Your task to perform on an android device: Show the shopping cart on walmart.com. Search for razer naga on walmart.com, select the first entry, add it to the cart, then select checkout. Image 0: 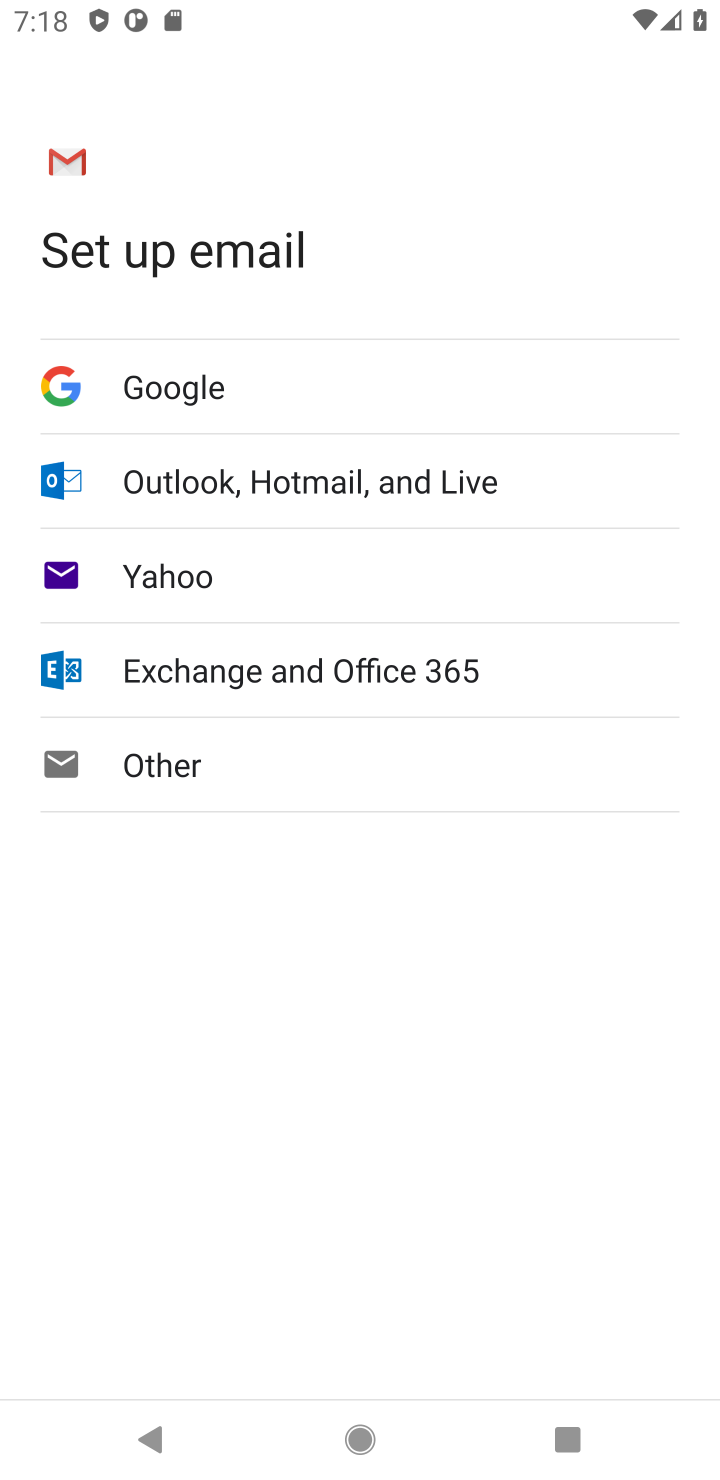
Step 0: press home button
Your task to perform on an android device: Show the shopping cart on walmart.com. Search for razer naga on walmart.com, select the first entry, add it to the cart, then select checkout. Image 1: 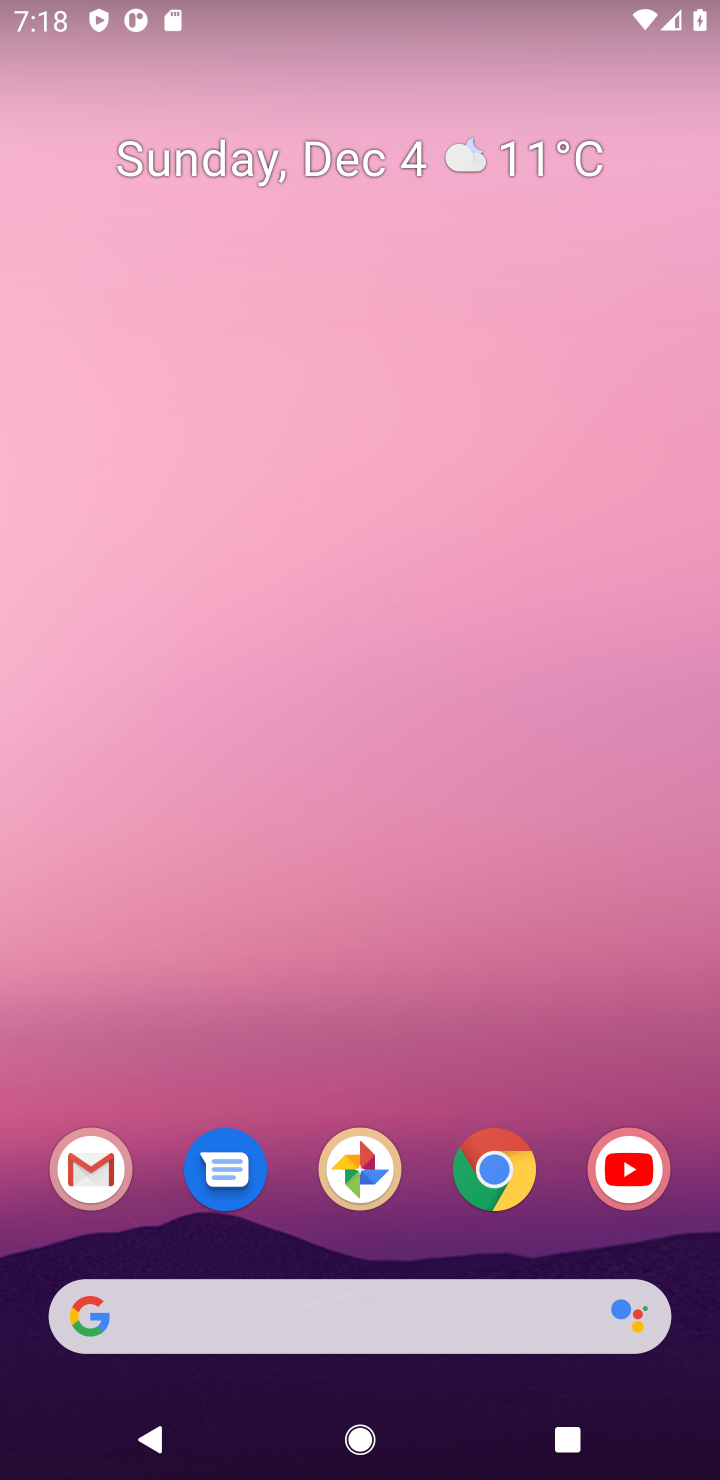
Step 1: drag from (489, 1391) to (562, 114)
Your task to perform on an android device: Show the shopping cart on walmart.com. Search for razer naga on walmart.com, select the first entry, add it to the cart, then select checkout. Image 2: 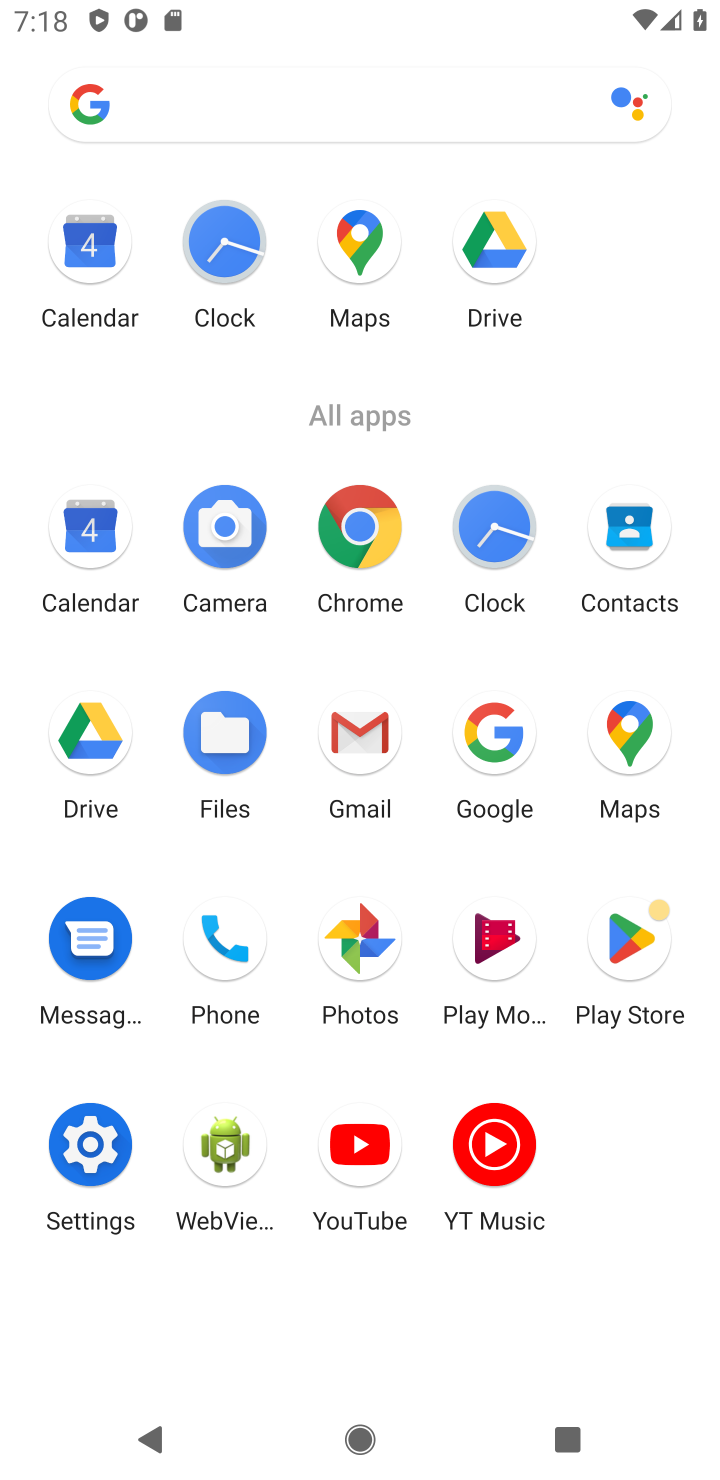
Step 2: click (355, 538)
Your task to perform on an android device: Show the shopping cart on walmart.com. Search for razer naga on walmart.com, select the first entry, add it to the cart, then select checkout. Image 3: 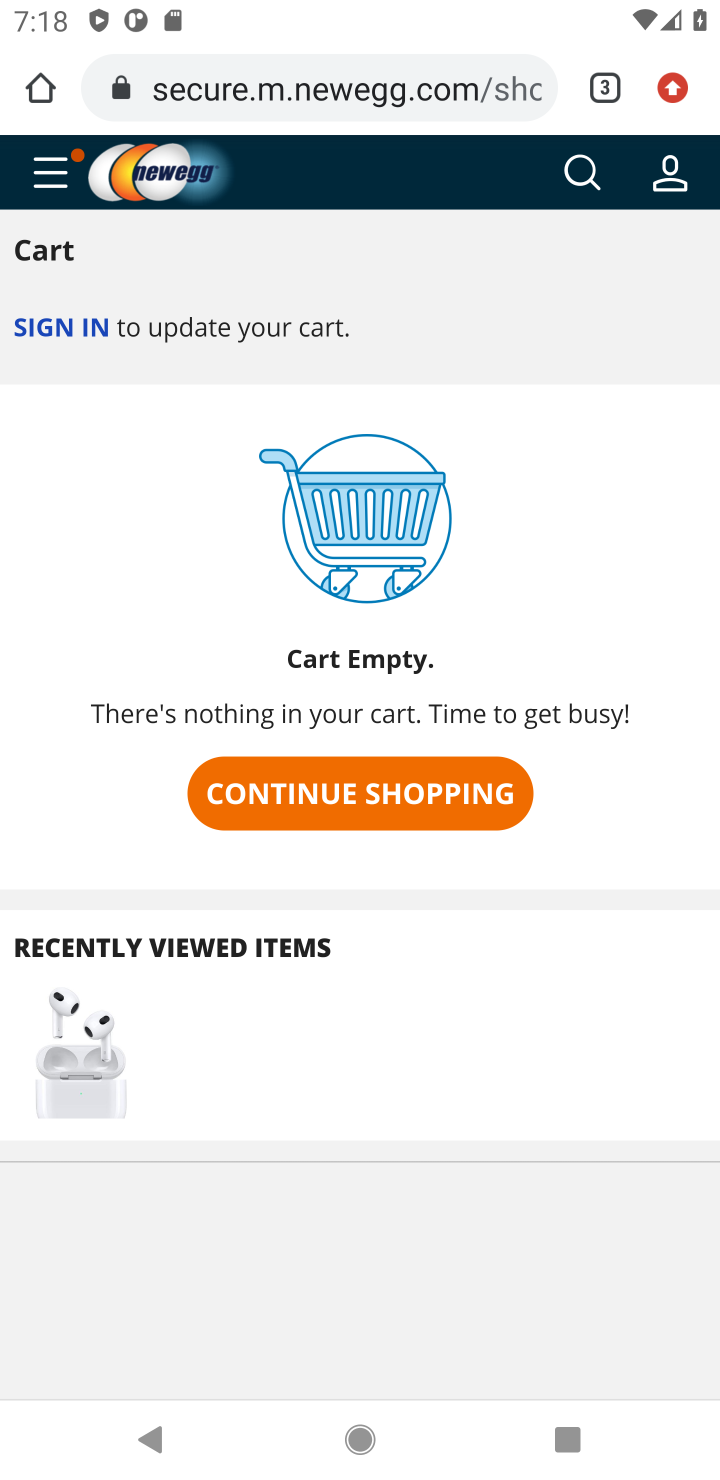
Step 3: click (265, 97)
Your task to perform on an android device: Show the shopping cart on walmart.com. Search for razer naga on walmart.com, select the first entry, add it to the cart, then select checkout. Image 4: 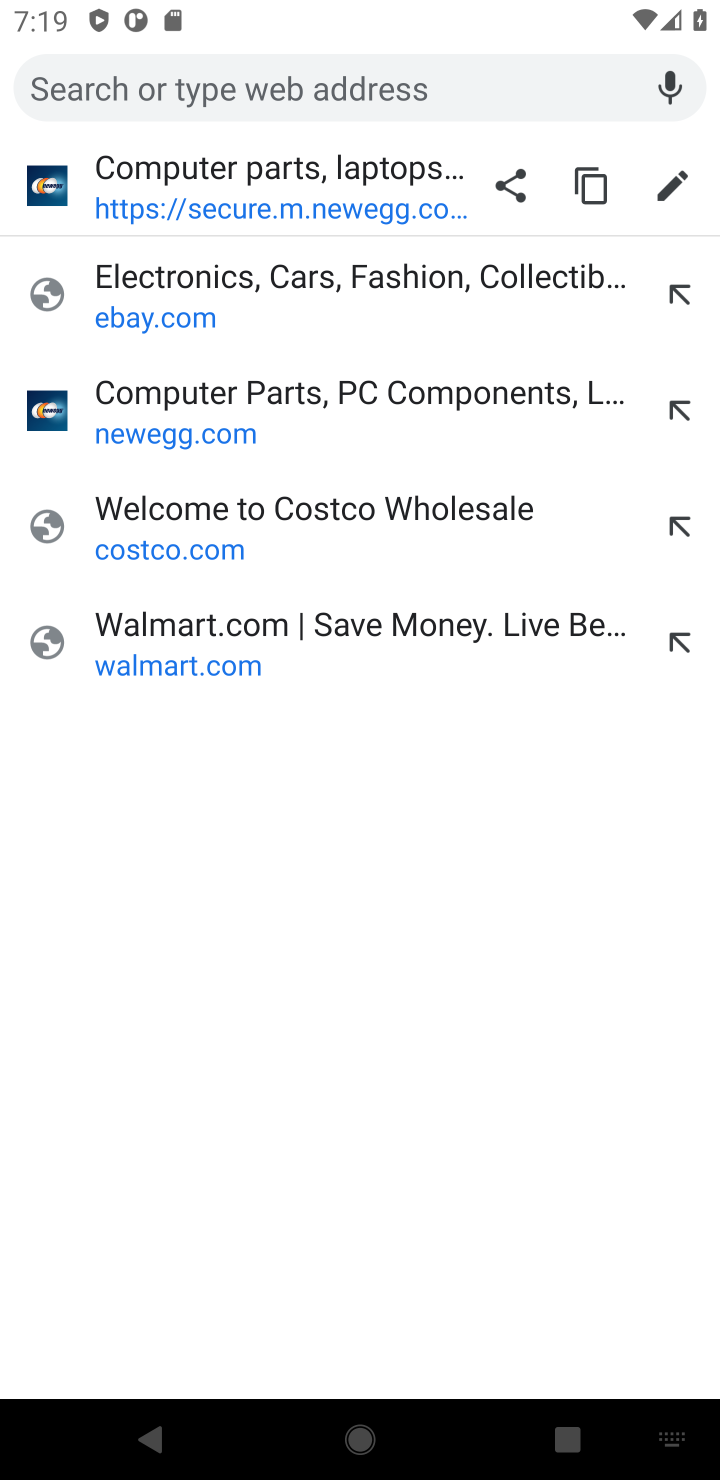
Step 4: type "walmart.com"
Your task to perform on an android device: Show the shopping cart on walmart.com. Search for razer naga on walmart.com, select the first entry, add it to the cart, then select checkout. Image 5: 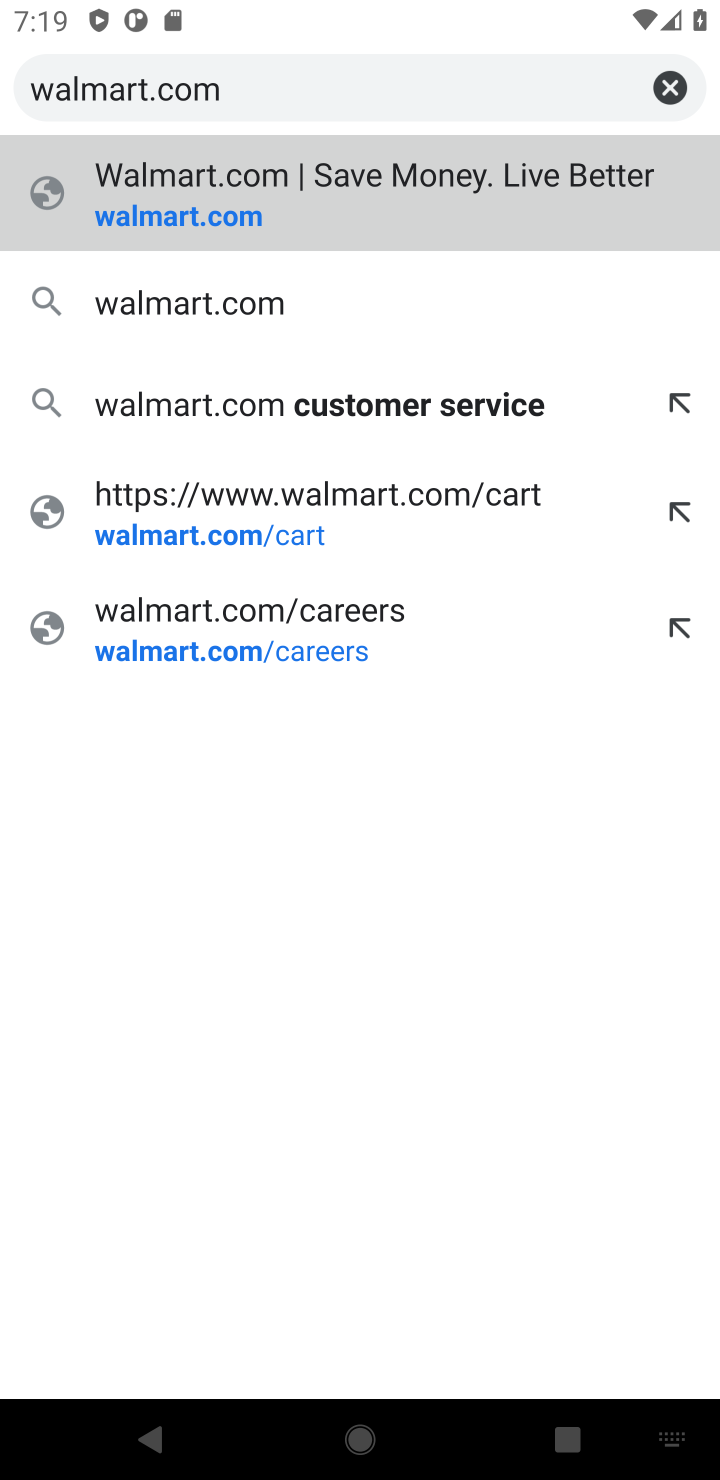
Step 5: type ""
Your task to perform on an android device: Show the shopping cart on walmart.com. Search for razer naga on walmart.com, select the first entry, add it to the cart, then select checkout. Image 6: 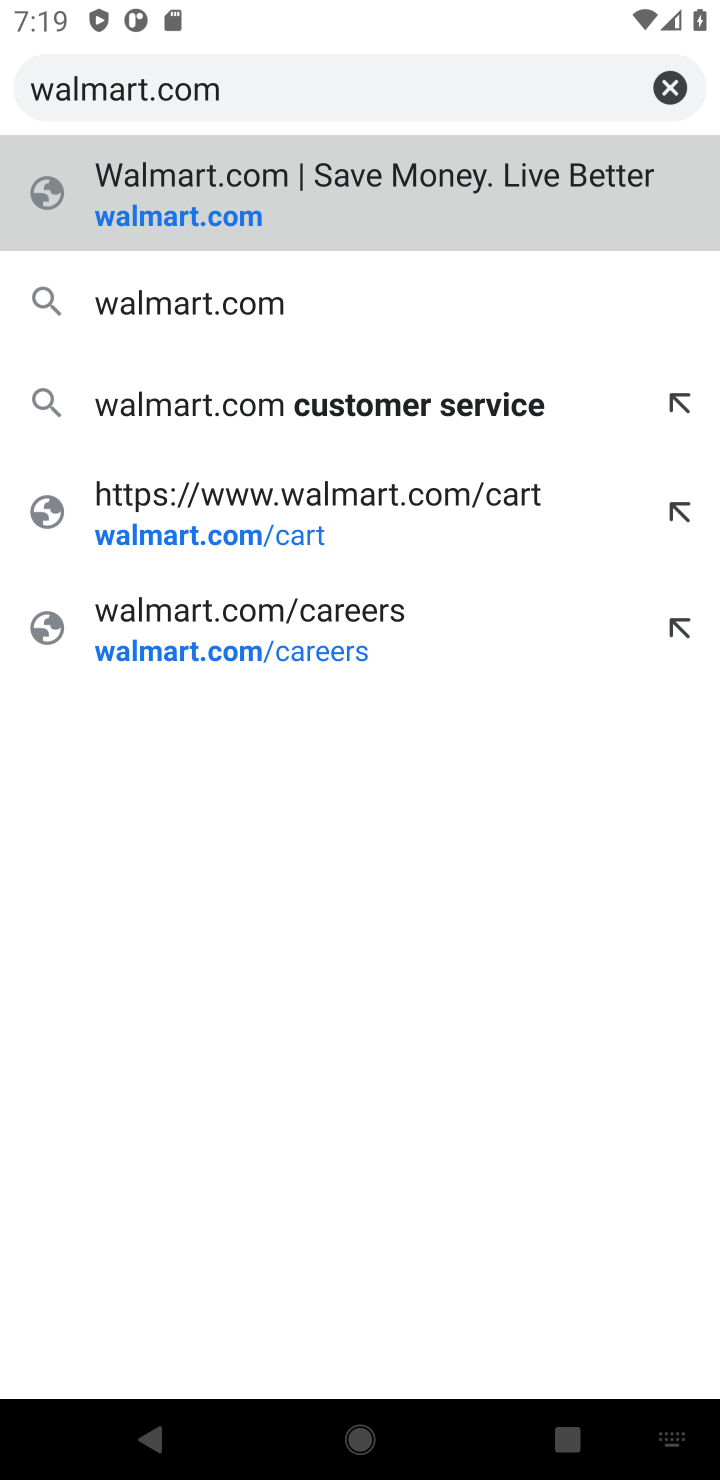
Step 6: click (167, 221)
Your task to perform on an android device: Show the shopping cart on walmart.com. Search for razer naga on walmart.com, select the first entry, add it to the cart, then select checkout. Image 7: 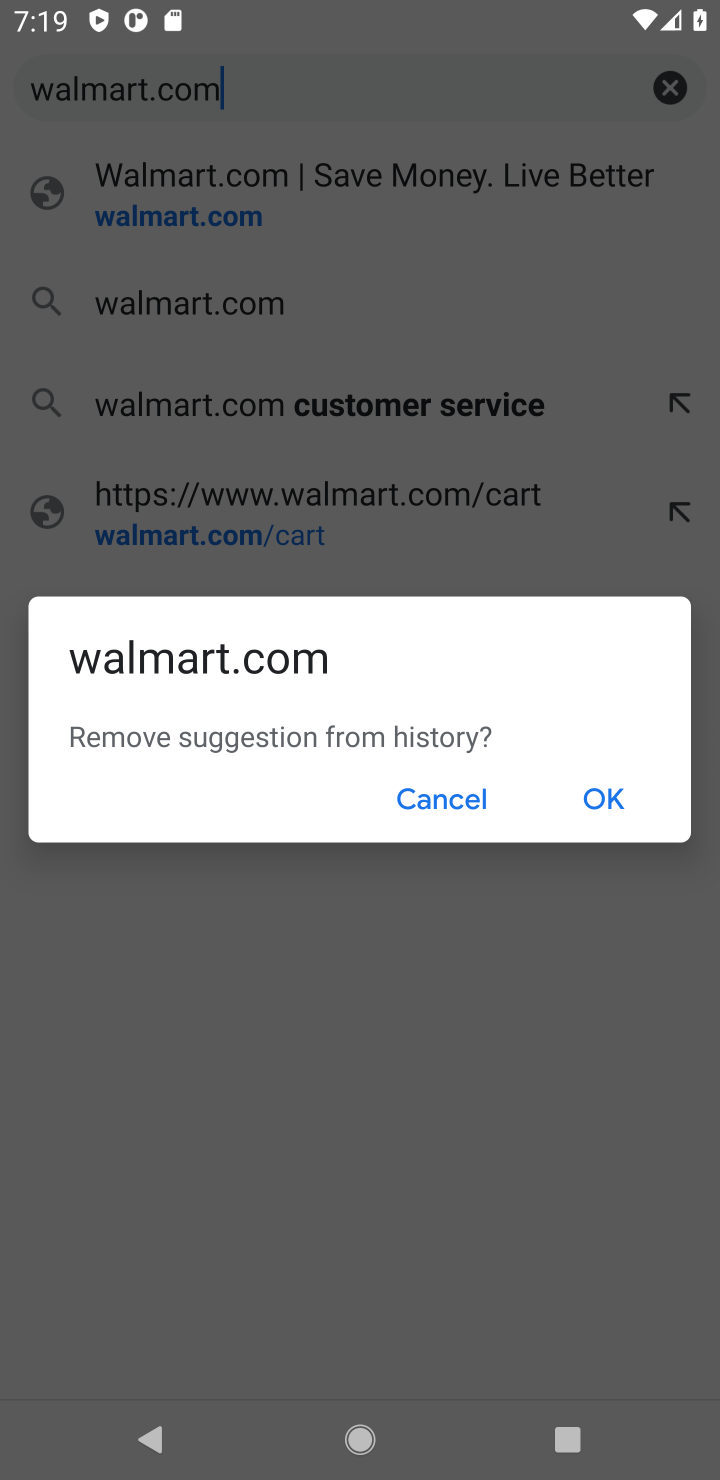
Step 7: click (603, 793)
Your task to perform on an android device: Show the shopping cart on walmart.com. Search for razer naga on walmart.com, select the first entry, add it to the cart, then select checkout. Image 8: 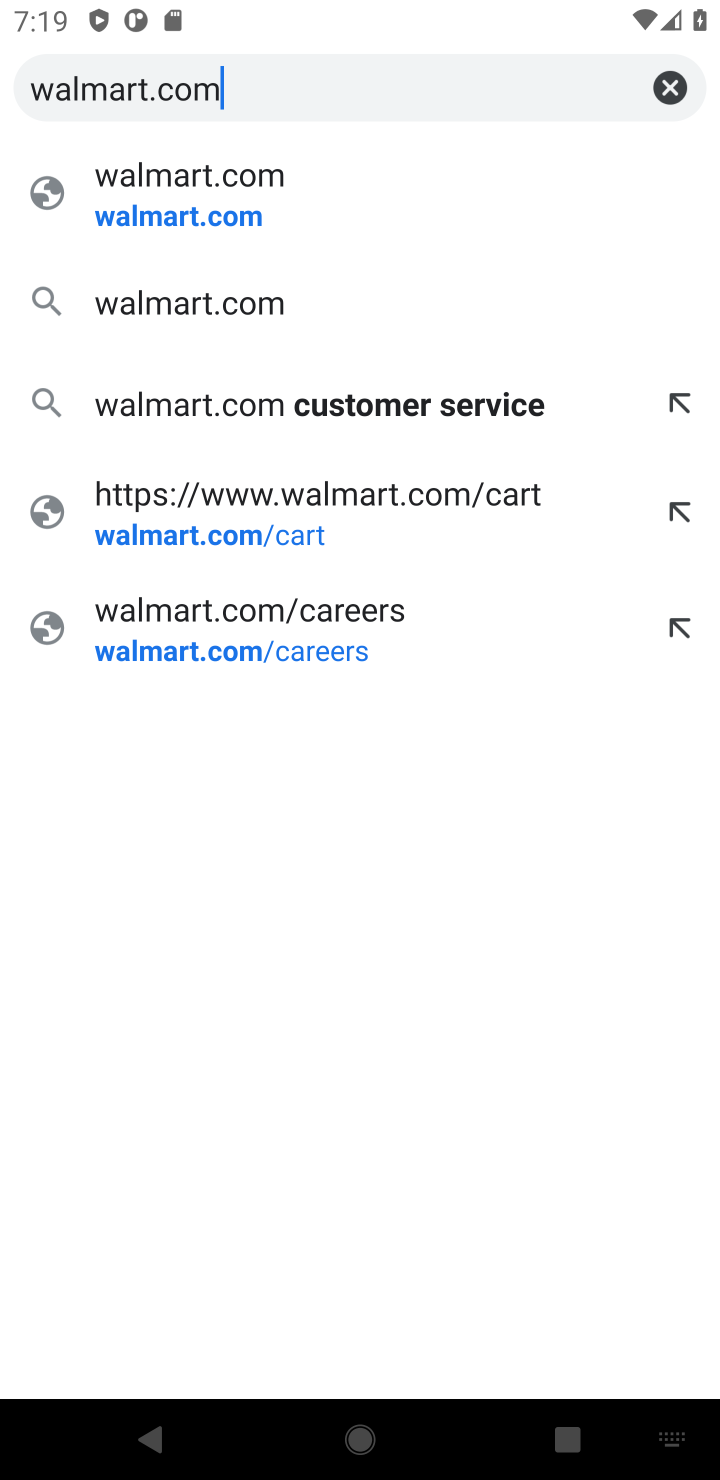
Step 8: click (193, 213)
Your task to perform on an android device: Show the shopping cart on walmart.com. Search for razer naga on walmart.com, select the first entry, add it to the cart, then select checkout. Image 9: 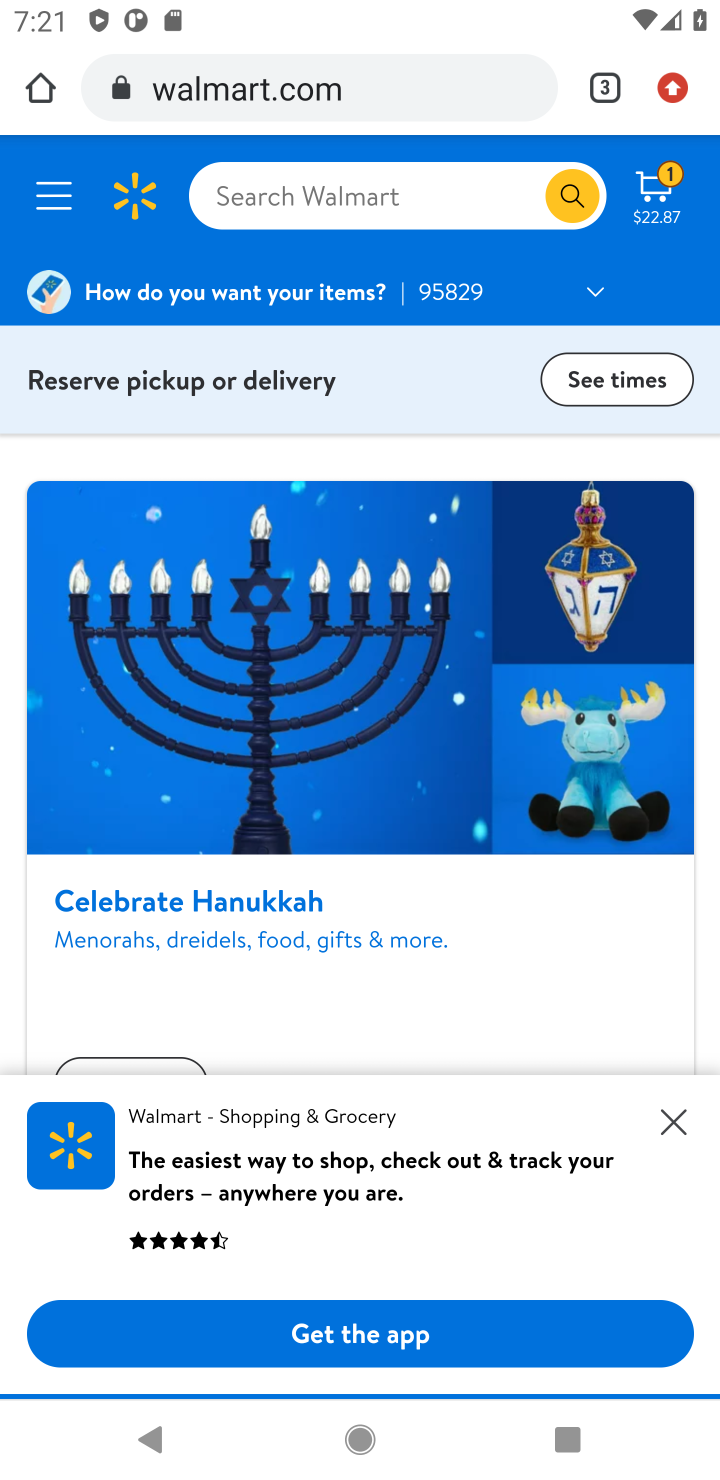
Step 9: click (652, 178)
Your task to perform on an android device: Show the shopping cart on walmart.com. Search for razer naga on walmart.com, select the first entry, add it to the cart, then select checkout. Image 10: 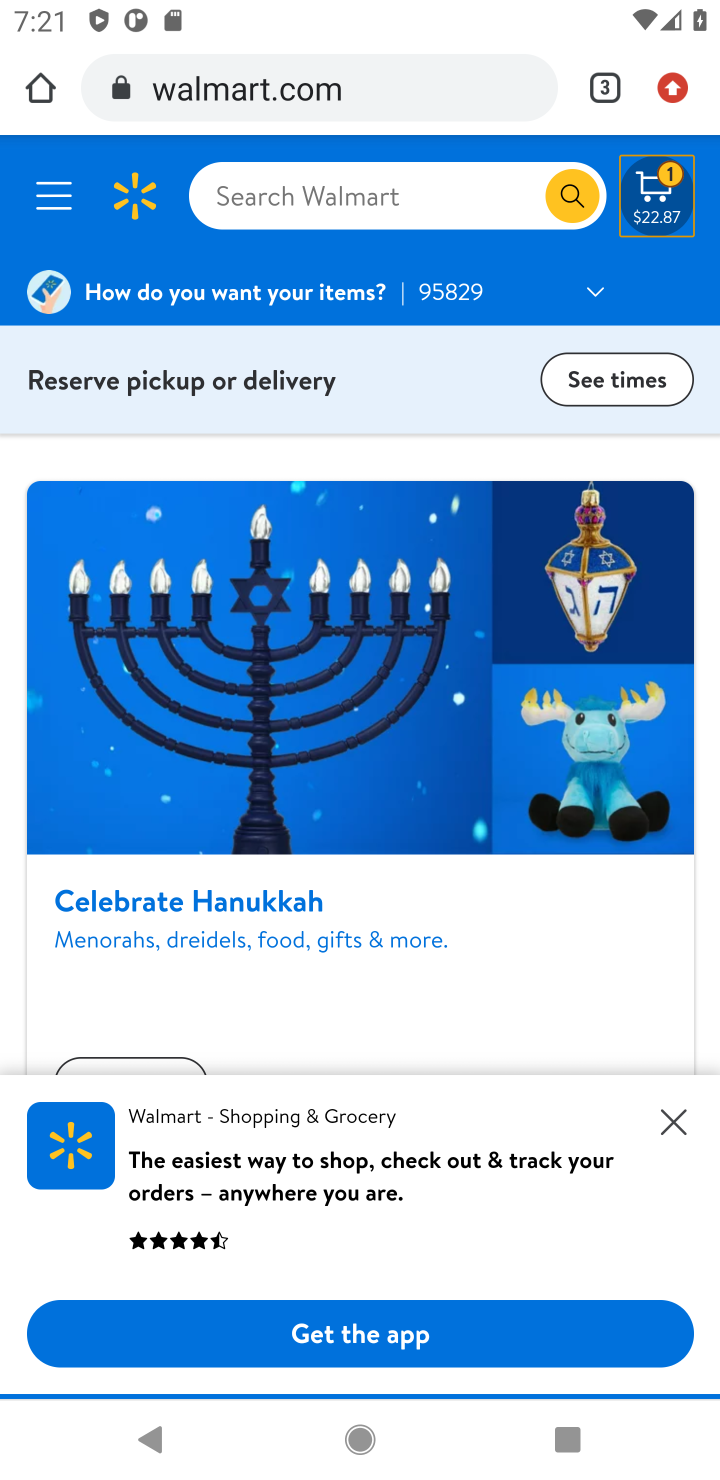
Step 10: click (655, 192)
Your task to perform on an android device: Show the shopping cart on walmart.com. Search for razer naga on walmart.com, select the first entry, add it to the cart, then select checkout. Image 11: 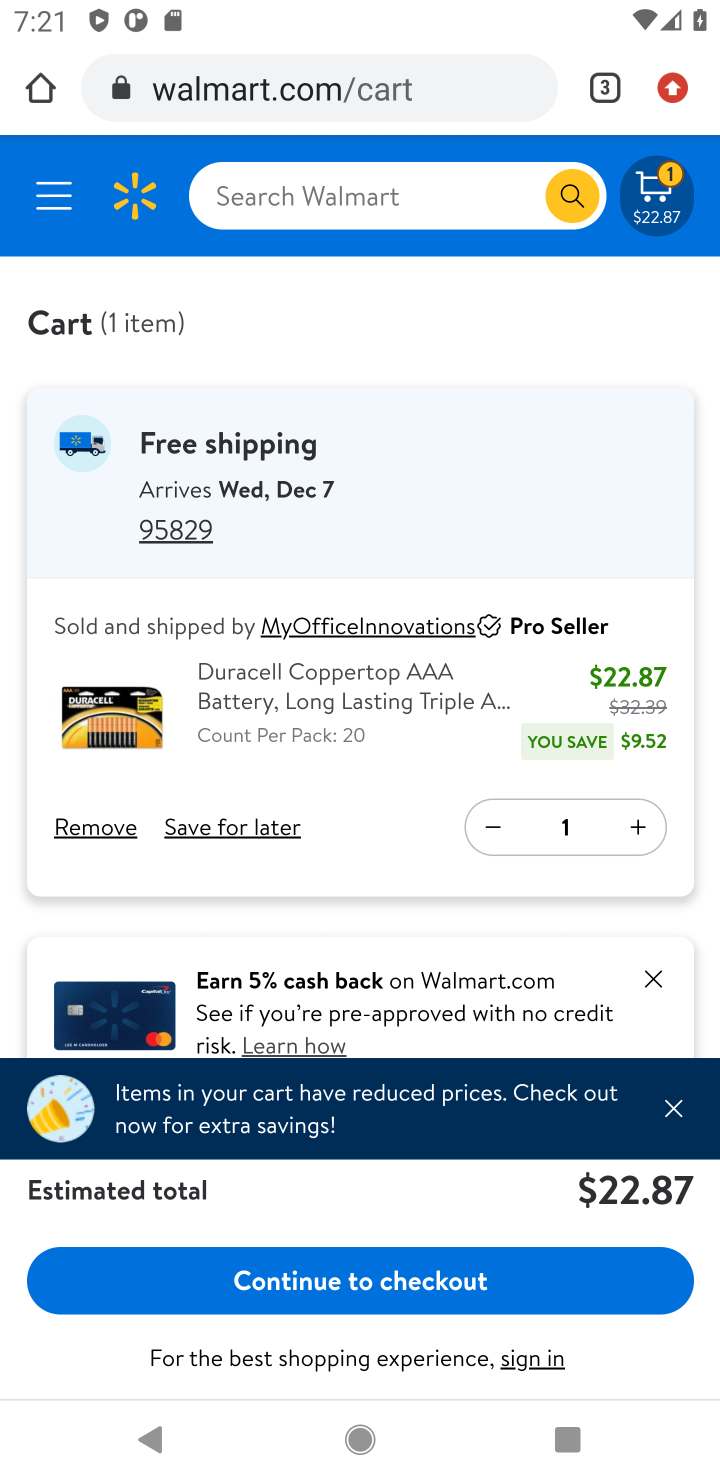
Step 11: click (286, 184)
Your task to perform on an android device: Show the shopping cart on walmart.com. Search for razer naga on walmart.com, select the first entry, add it to the cart, then select checkout. Image 12: 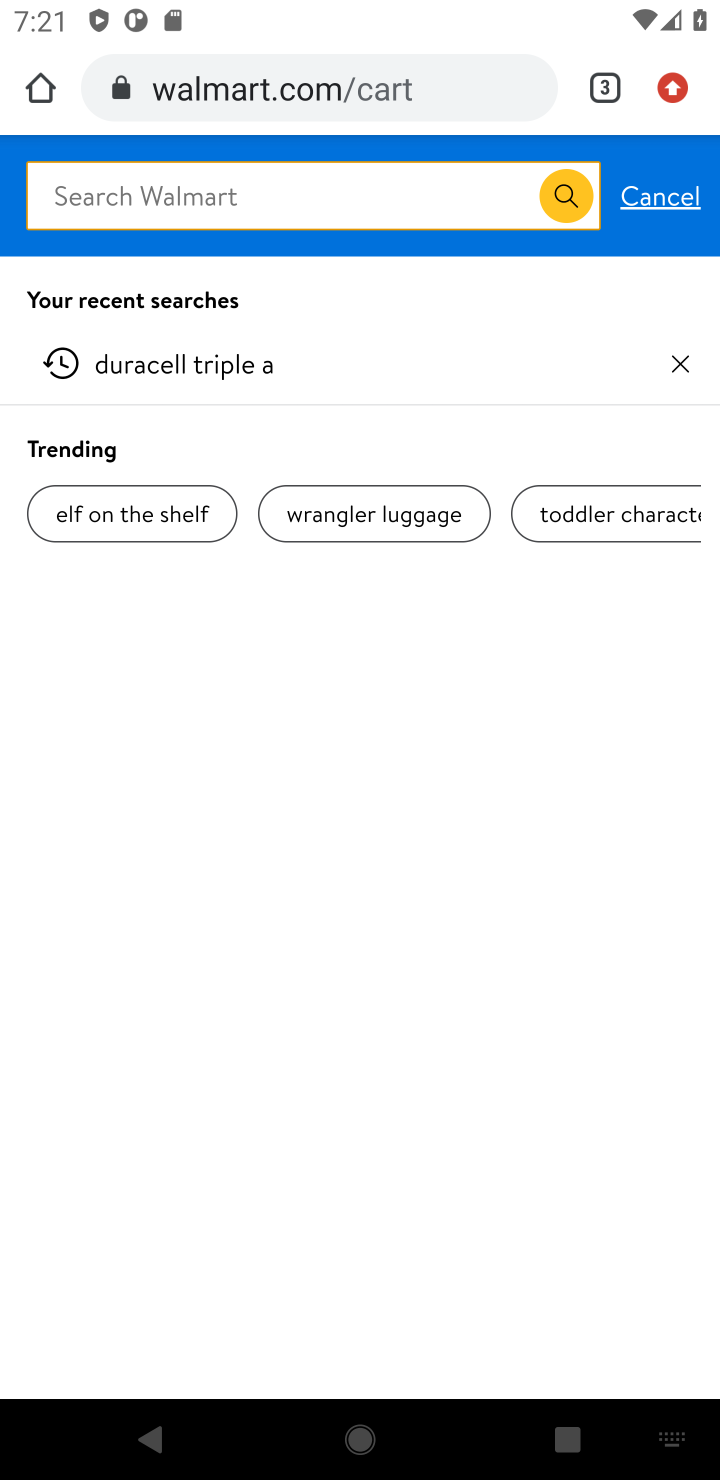
Step 12: type "razer naga"
Your task to perform on an android device: Show the shopping cart on walmart.com. Search for razer naga on walmart.com, select the first entry, add it to the cart, then select checkout. Image 13: 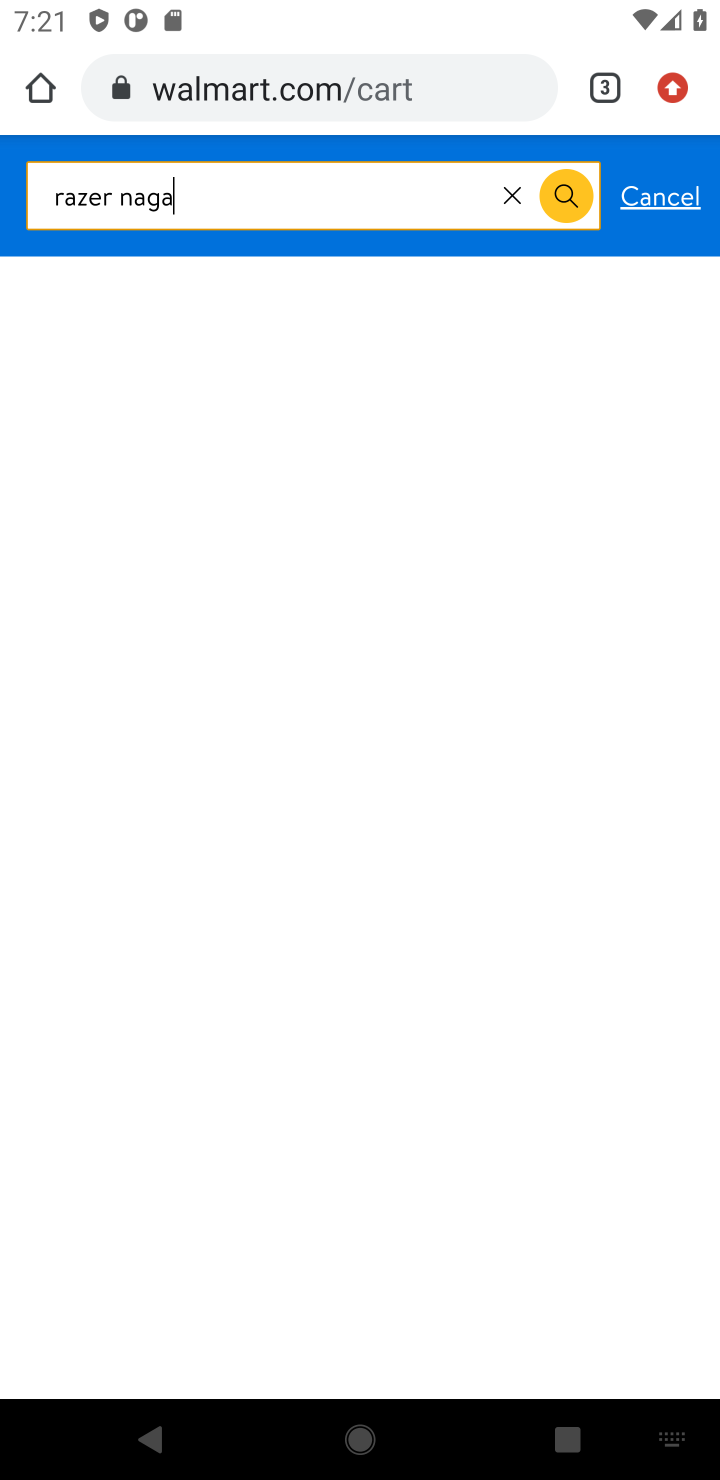
Step 13: type ""
Your task to perform on an android device: Show the shopping cart on walmart.com. Search for razer naga on walmart.com, select the first entry, add it to the cart, then select checkout. Image 14: 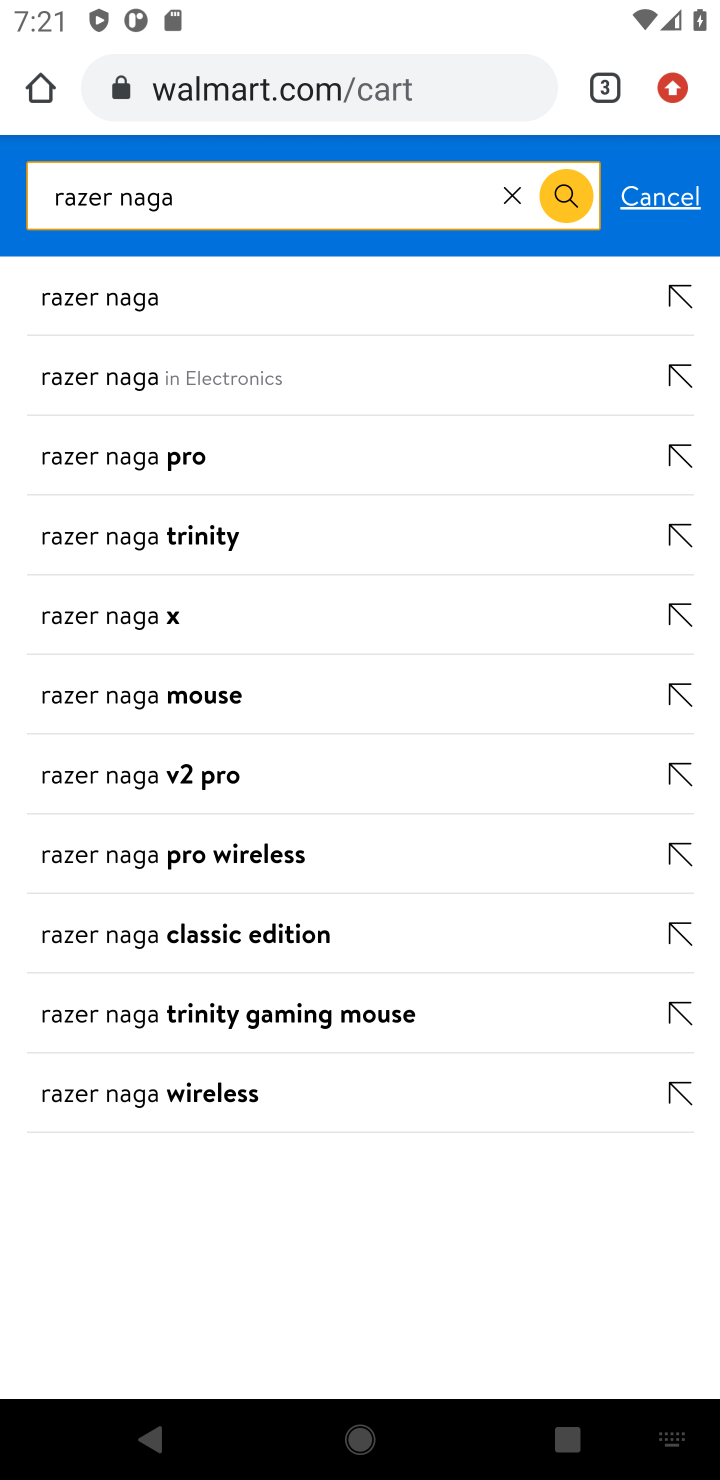
Step 14: click (127, 296)
Your task to perform on an android device: Show the shopping cart on walmart.com. Search for razer naga on walmart.com, select the first entry, add it to the cart, then select checkout. Image 15: 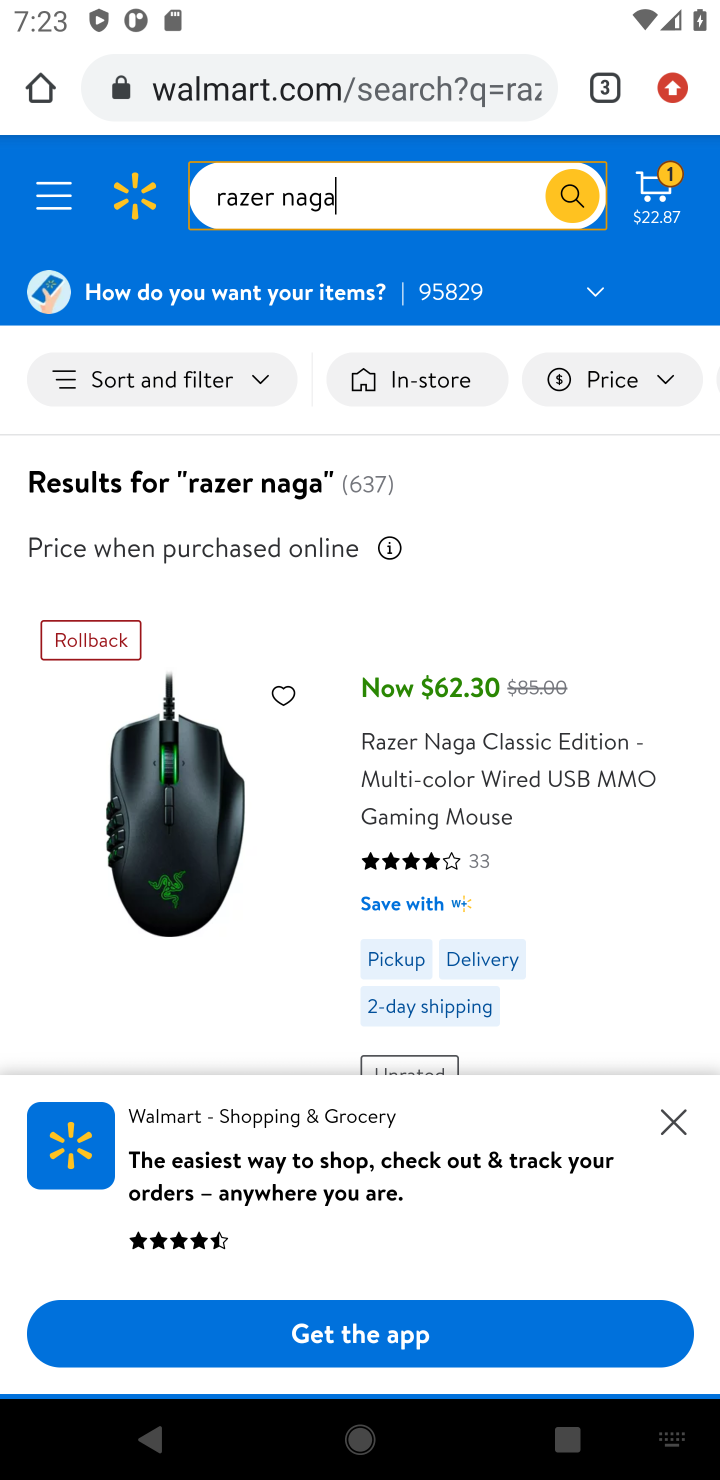
Step 15: click (579, 192)
Your task to perform on an android device: Show the shopping cart on walmart.com. Search for razer naga on walmart.com, select the first entry, add it to the cart, then select checkout. Image 16: 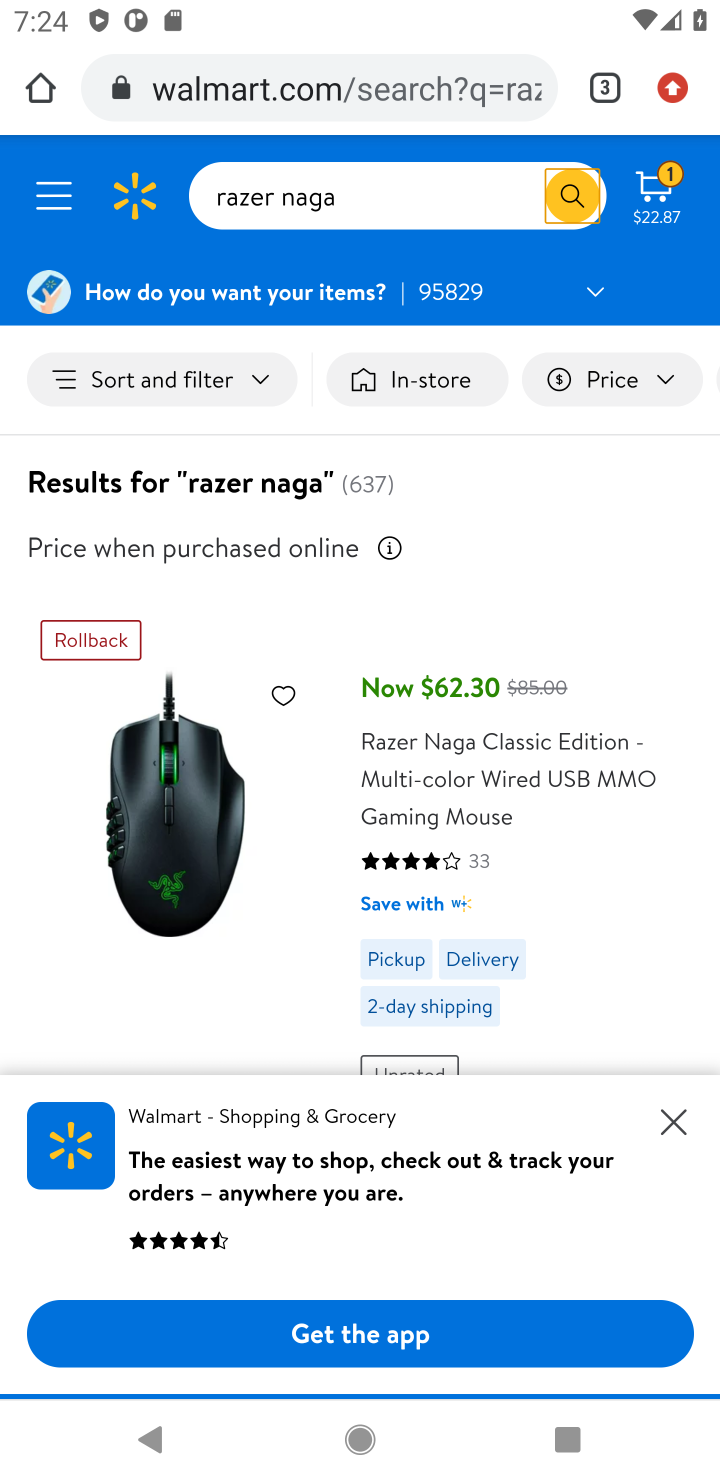
Step 16: drag from (502, 858) to (550, 382)
Your task to perform on an android device: Show the shopping cart on walmart.com. Search for razer naga on walmart.com, select the first entry, add it to the cart, then select checkout. Image 17: 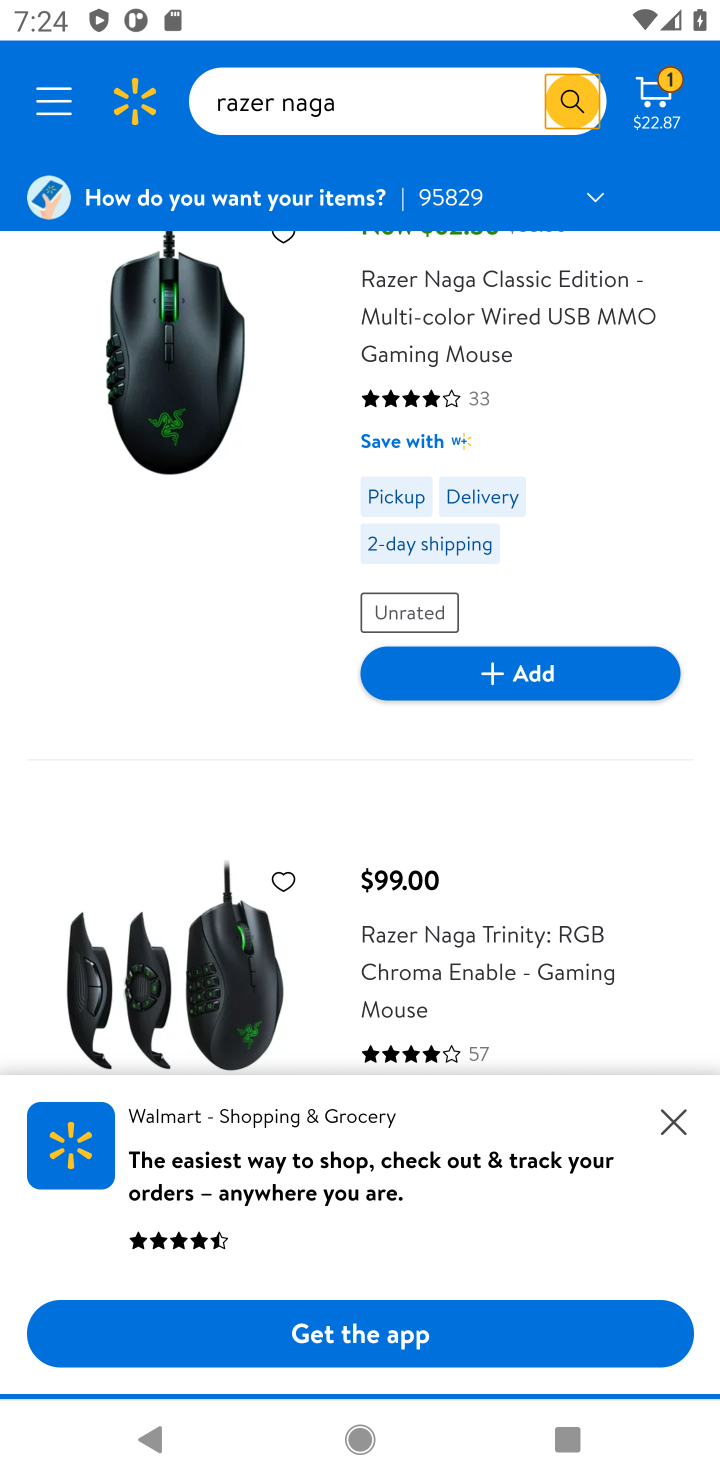
Step 17: click (545, 669)
Your task to perform on an android device: Show the shopping cart on walmart.com. Search for razer naga on walmart.com, select the first entry, add it to the cart, then select checkout. Image 18: 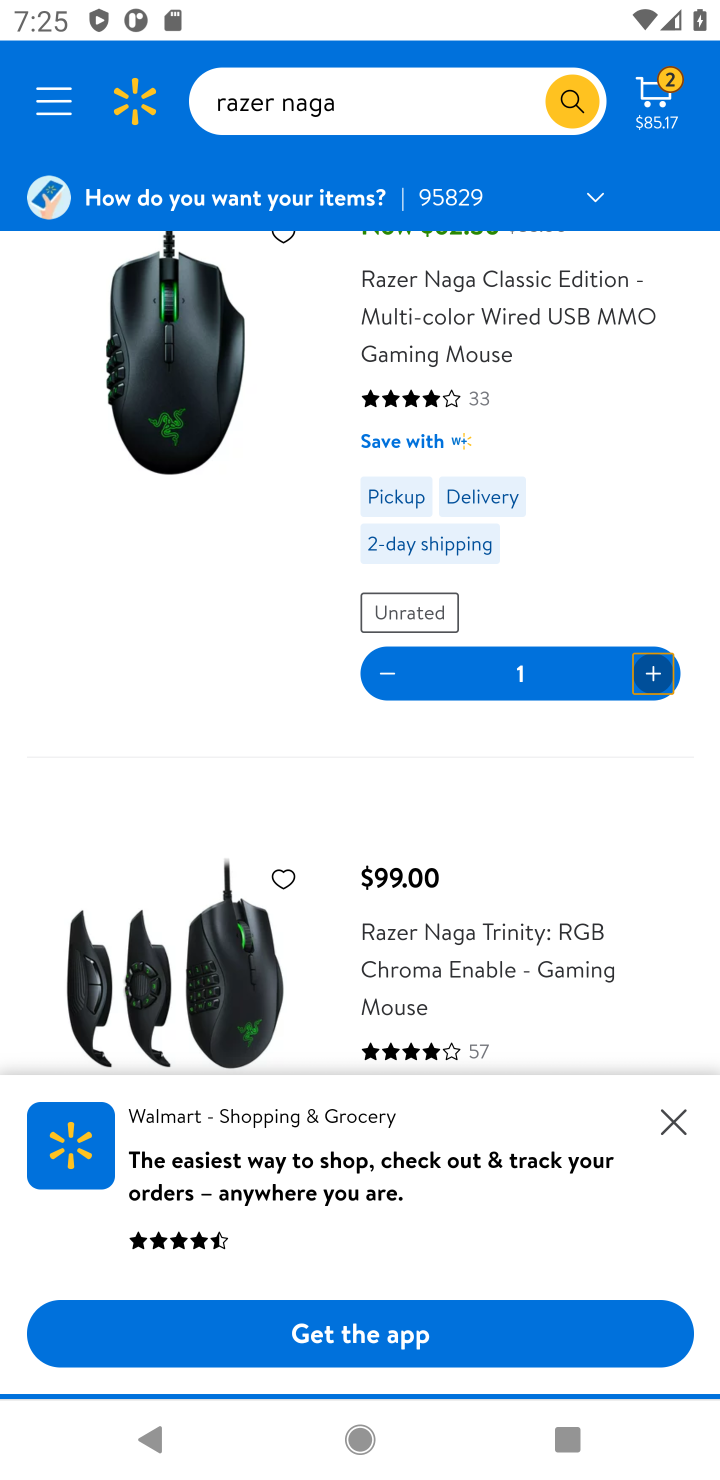
Step 18: click (248, 344)
Your task to perform on an android device: Show the shopping cart on walmart.com. Search for razer naga on walmart.com, select the first entry, add it to the cart, then select checkout. Image 19: 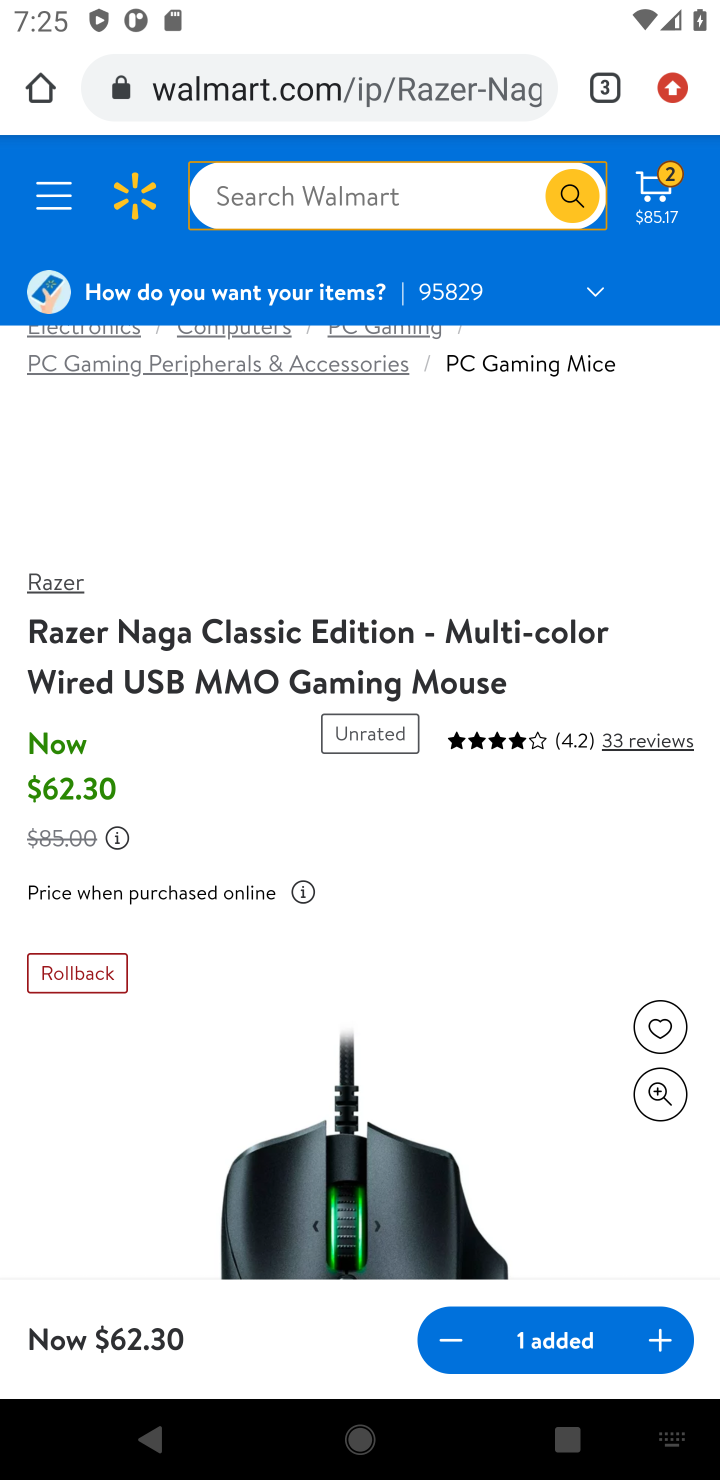
Step 19: drag from (428, 1126) to (446, 428)
Your task to perform on an android device: Show the shopping cart on walmart.com. Search for razer naga on walmart.com, select the first entry, add it to the cart, then select checkout. Image 20: 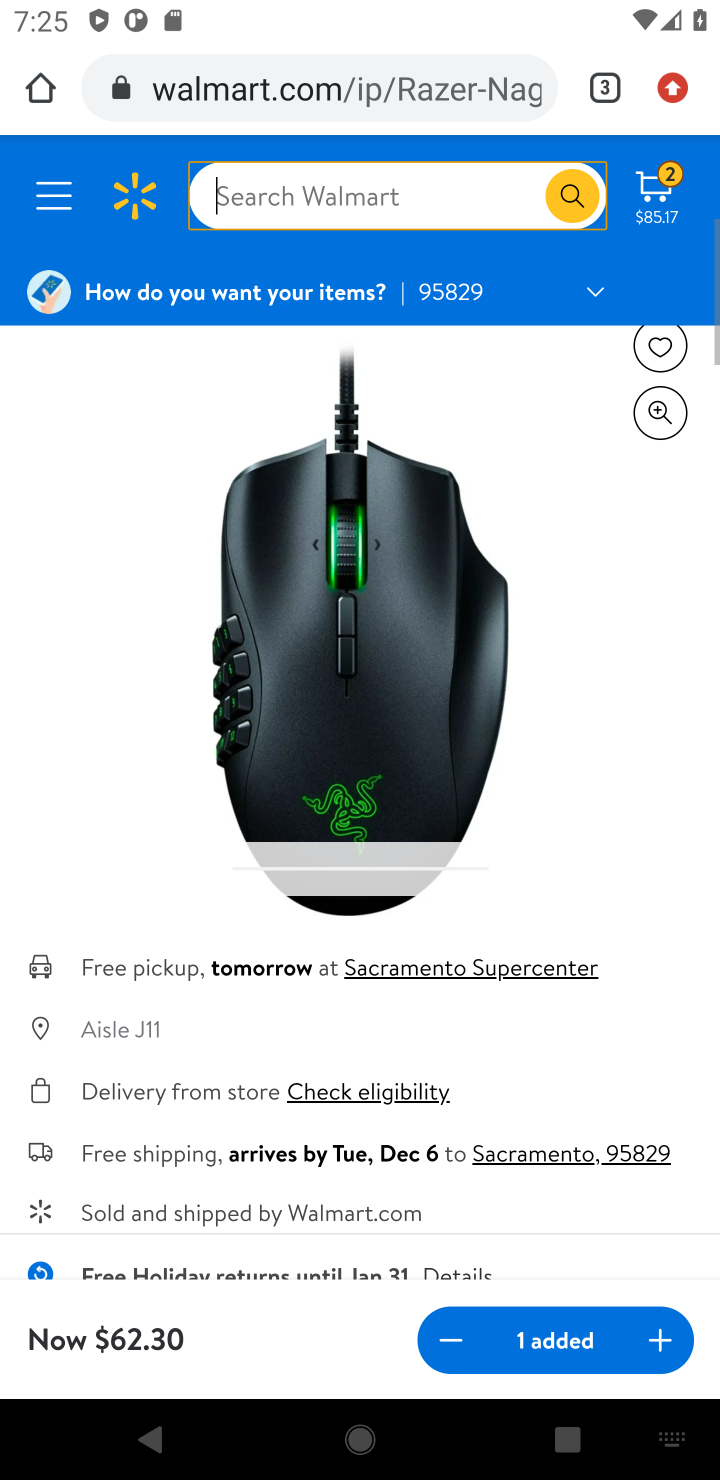
Step 20: drag from (481, 1101) to (525, 359)
Your task to perform on an android device: Show the shopping cart on walmart.com. Search for razer naga on walmart.com, select the first entry, add it to the cart, then select checkout. Image 21: 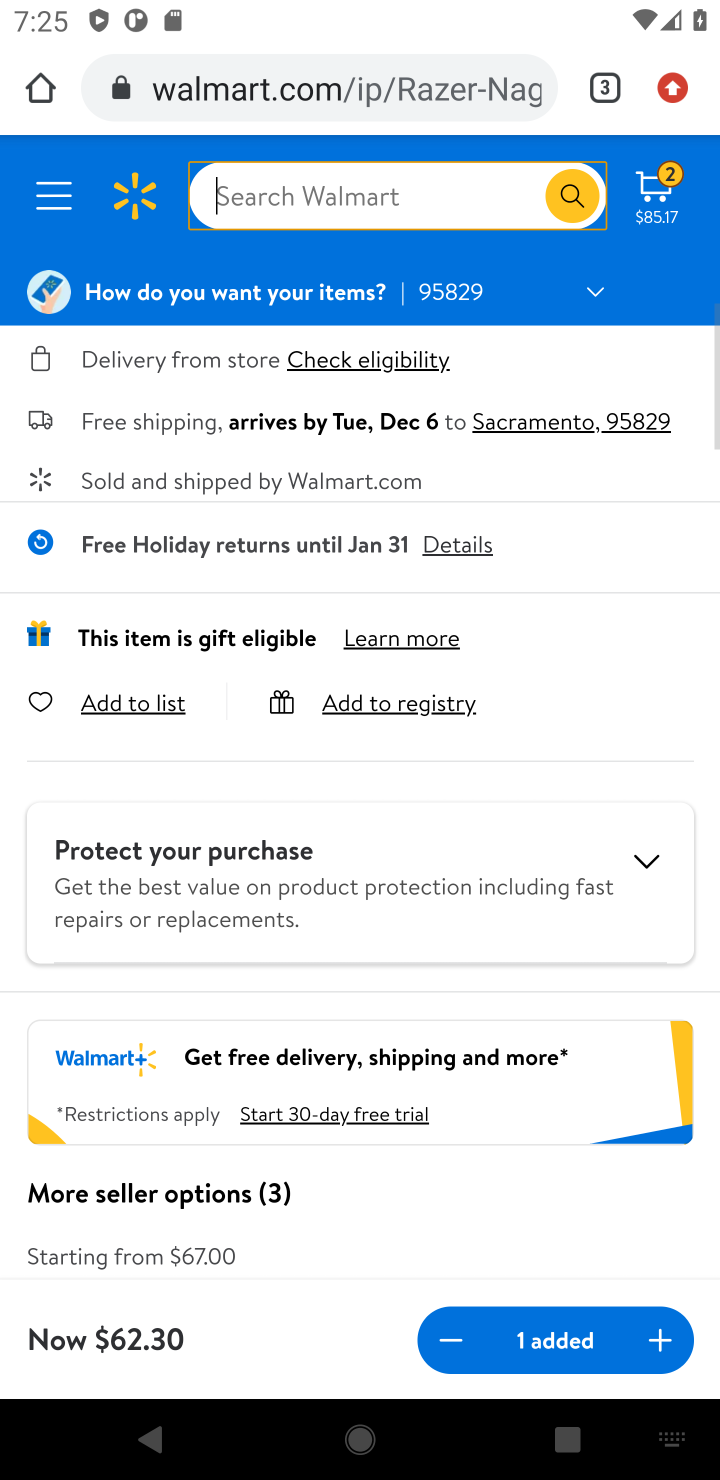
Step 21: drag from (526, 925) to (474, 392)
Your task to perform on an android device: Show the shopping cart on walmart.com. Search for razer naga on walmart.com, select the first entry, add it to the cart, then select checkout. Image 22: 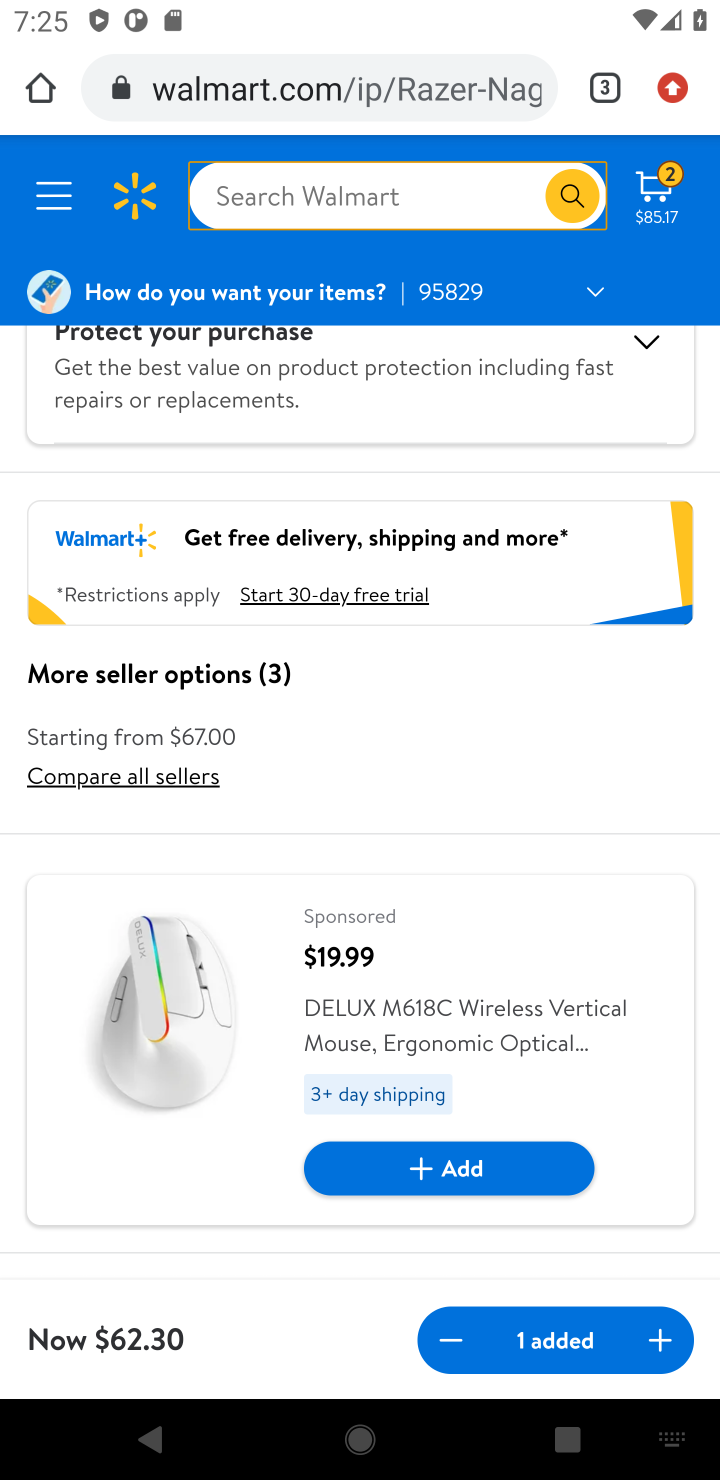
Step 22: drag from (419, 780) to (421, 398)
Your task to perform on an android device: Show the shopping cart on walmart.com. Search for razer naga on walmart.com, select the first entry, add it to the cart, then select checkout. Image 23: 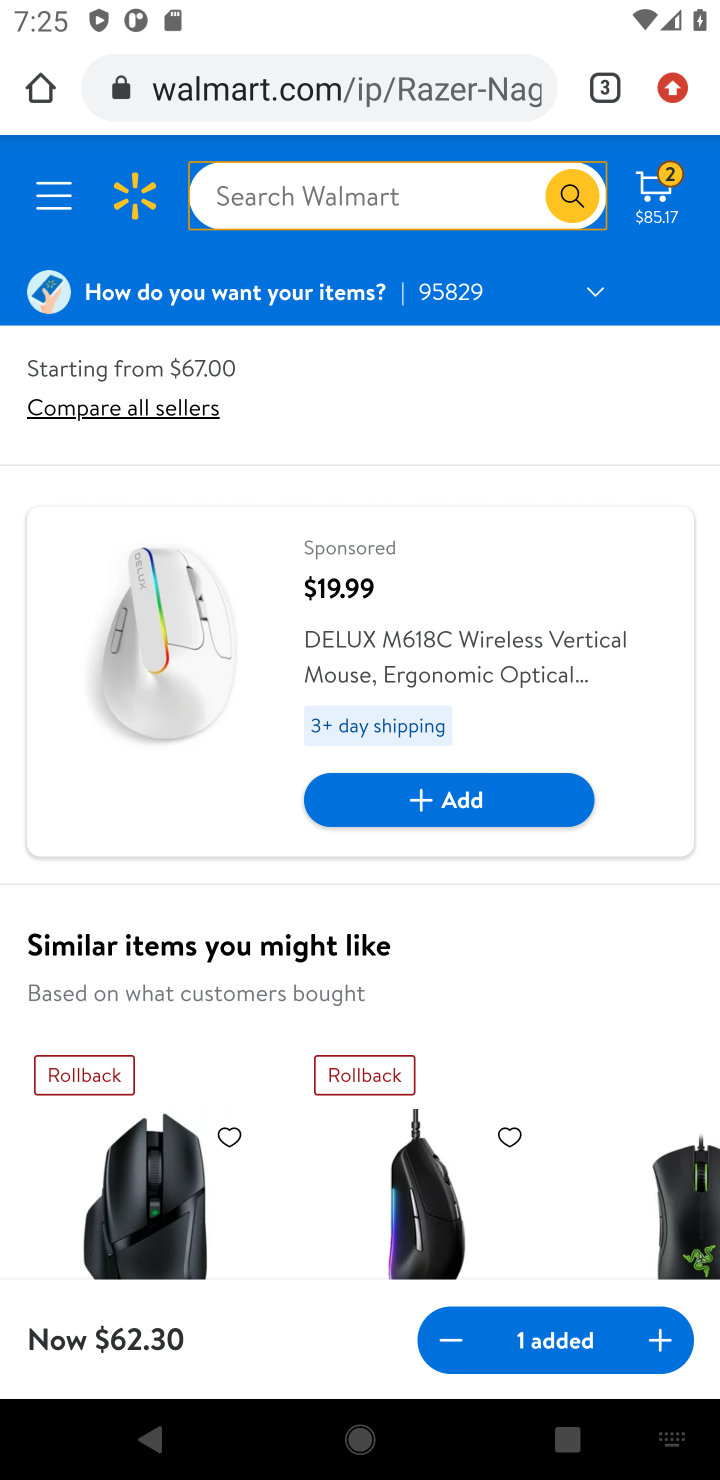
Step 23: drag from (536, 946) to (431, 365)
Your task to perform on an android device: Show the shopping cart on walmart.com. Search for razer naga on walmart.com, select the first entry, add it to the cart, then select checkout. Image 24: 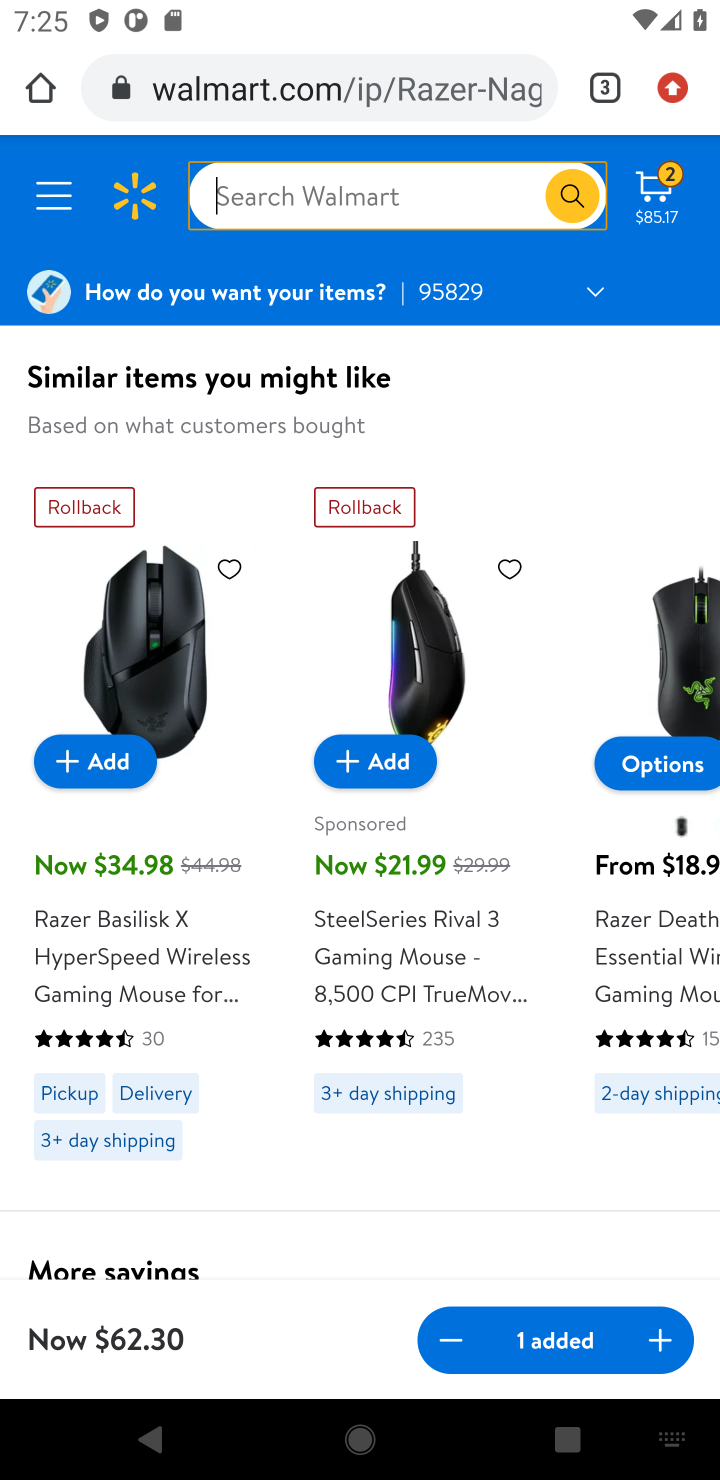
Step 24: drag from (433, 1195) to (435, 436)
Your task to perform on an android device: Show the shopping cart on walmart.com. Search for razer naga on walmart.com, select the first entry, add it to the cart, then select checkout. Image 25: 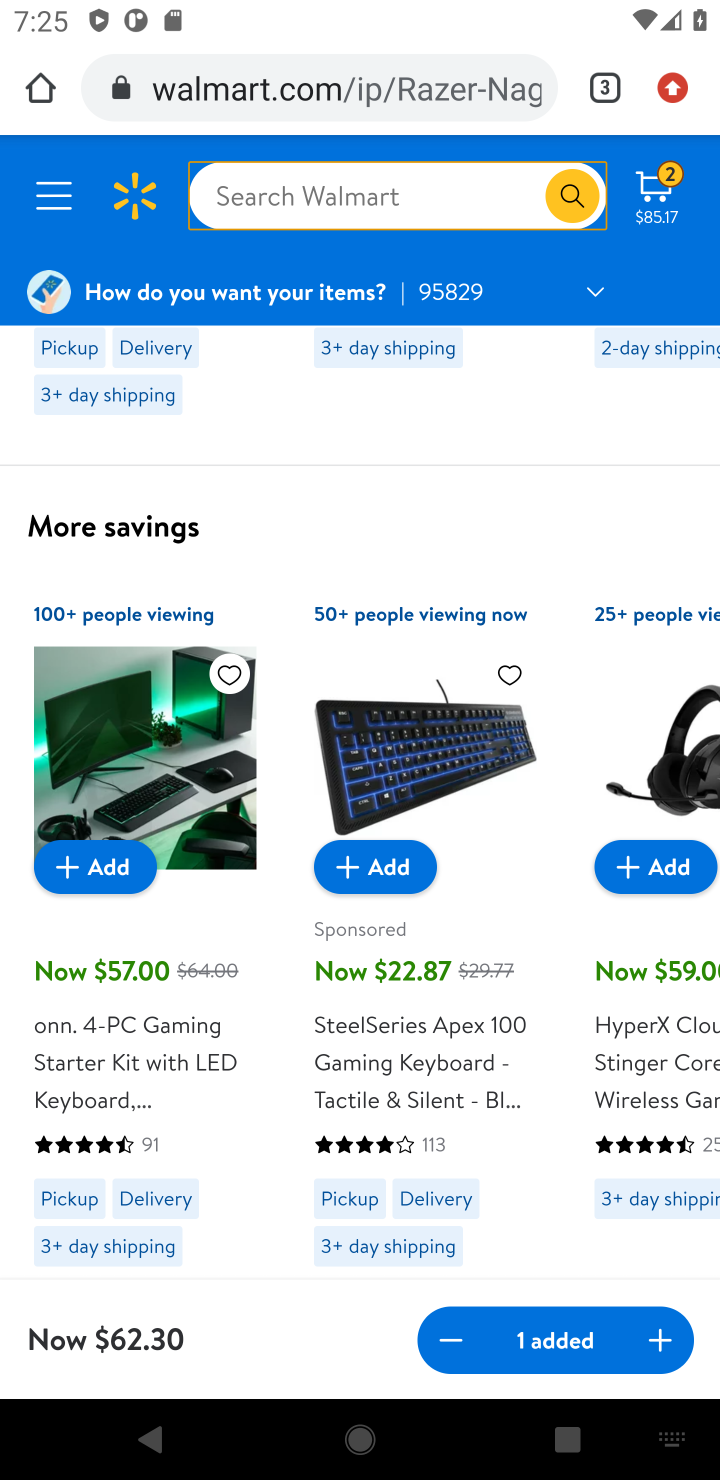
Step 25: drag from (416, 433) to (370, 1282)
Your task to perform on an android device: Show the shopping cart on walmart.com. Search for razer naga on walmart.com, select the first entry, add it to the cart, then select checkout. Image 26: 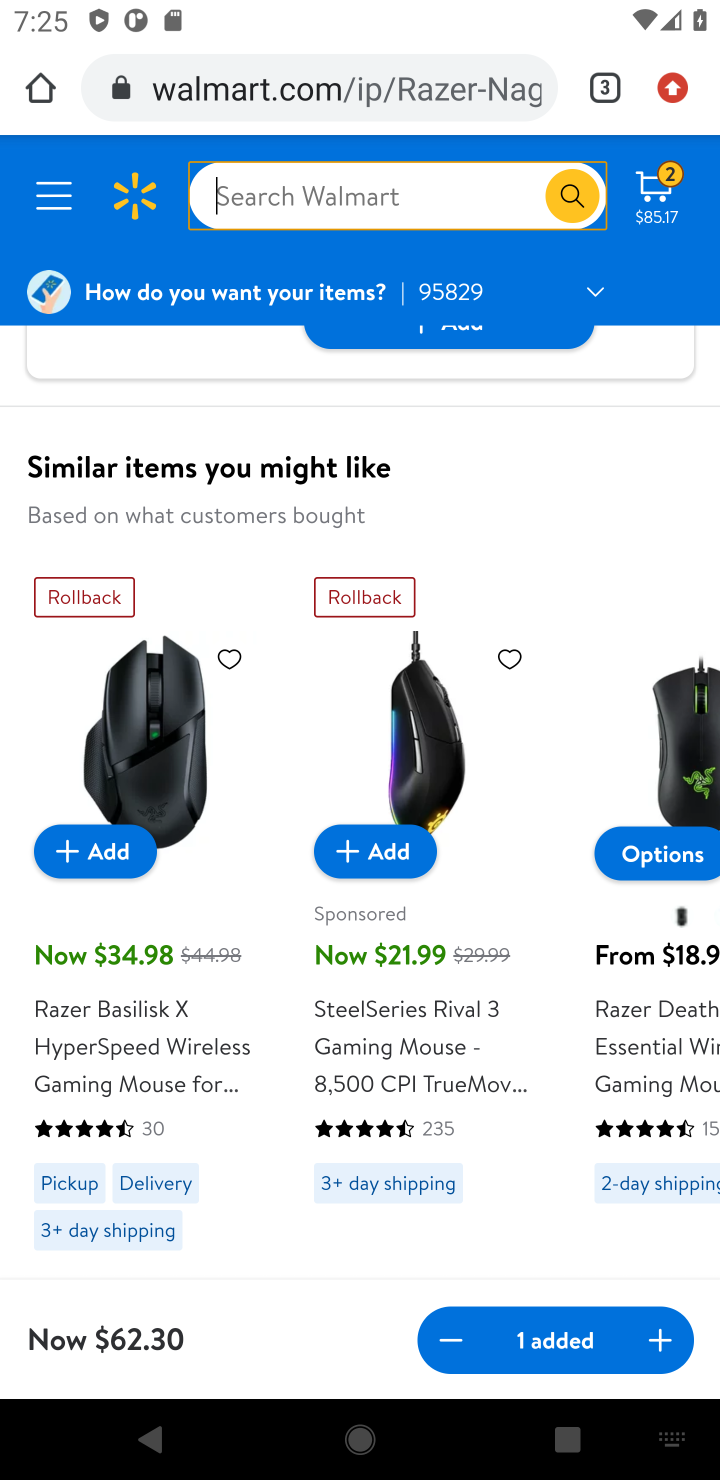
Step 26: drag from (154, 439) to (235, 1139)
Your task to perform on an android device: Show the shopping cart on walmart.com. Search for razer naga on walmart.com, select the first entry, add it to the cart, then select checkout. Image 27: 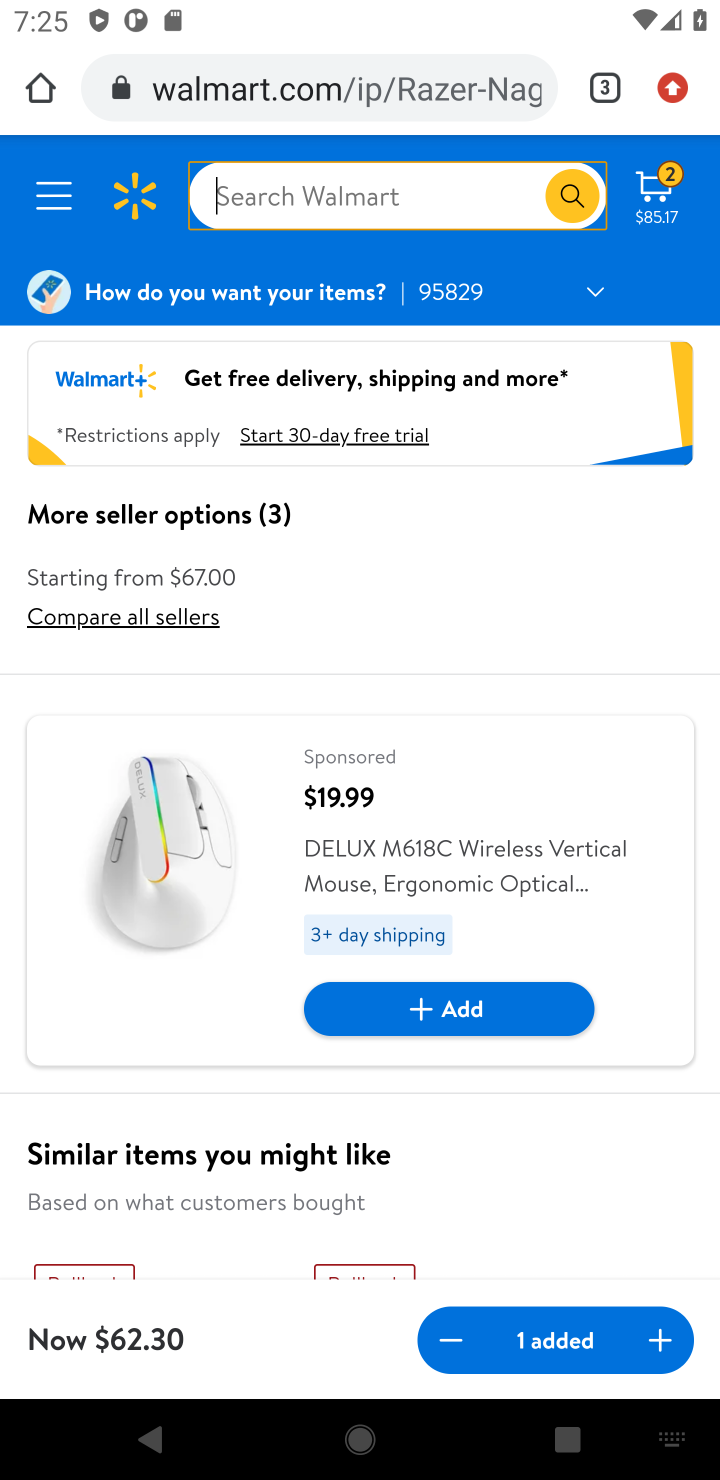
Step 27: drag from (260, 545) to (246, 1107)
Your task to perform on an android device: Show the shopping cart on walmart.com. Search for razer naga on walmart.com, select the first entry, add it to the cart, then select checkout. Image 28: 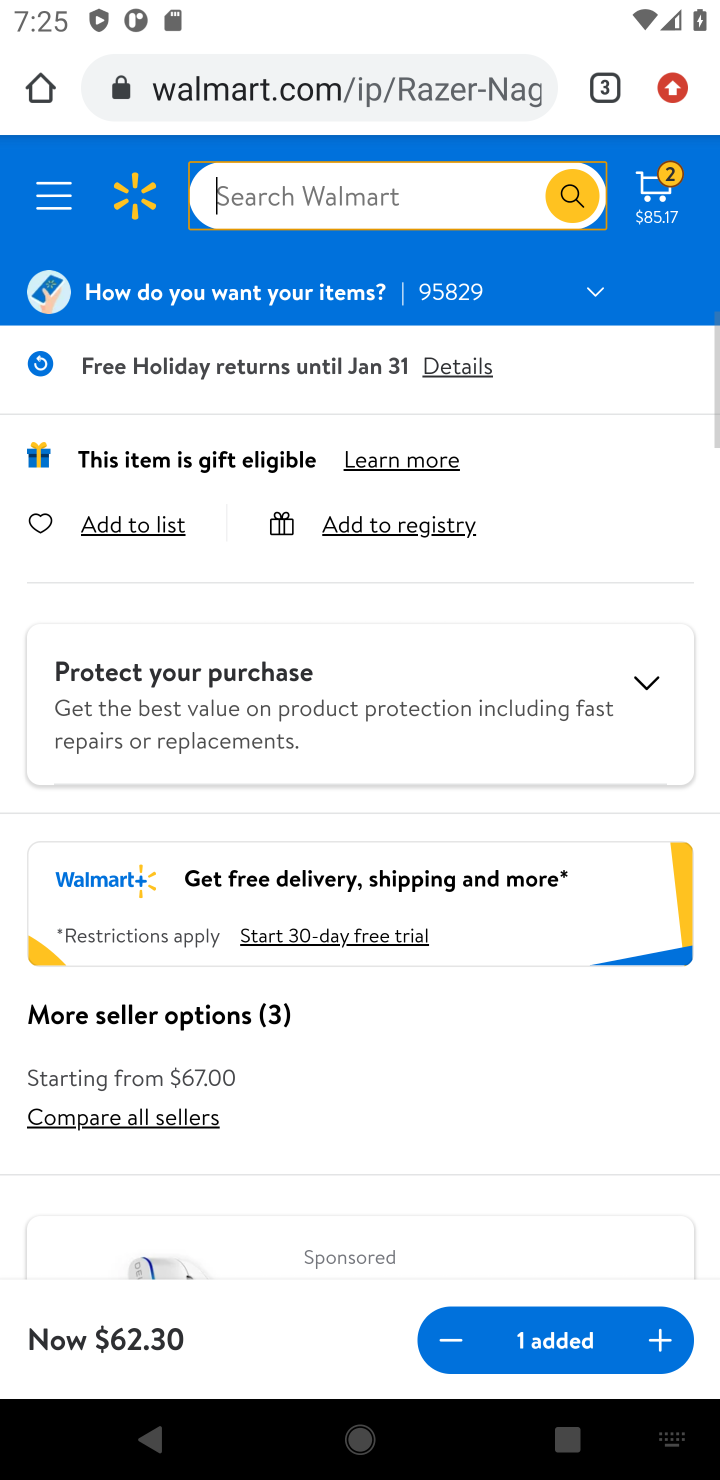
Step 28: drag from (324, 515) to (284, 1227)
Your task to perform on an android device: Show the shopping cart on walmart.com. Search for razer naga on walmart.com, select the first entry, add it to the cart, then select checkout. Image 29: 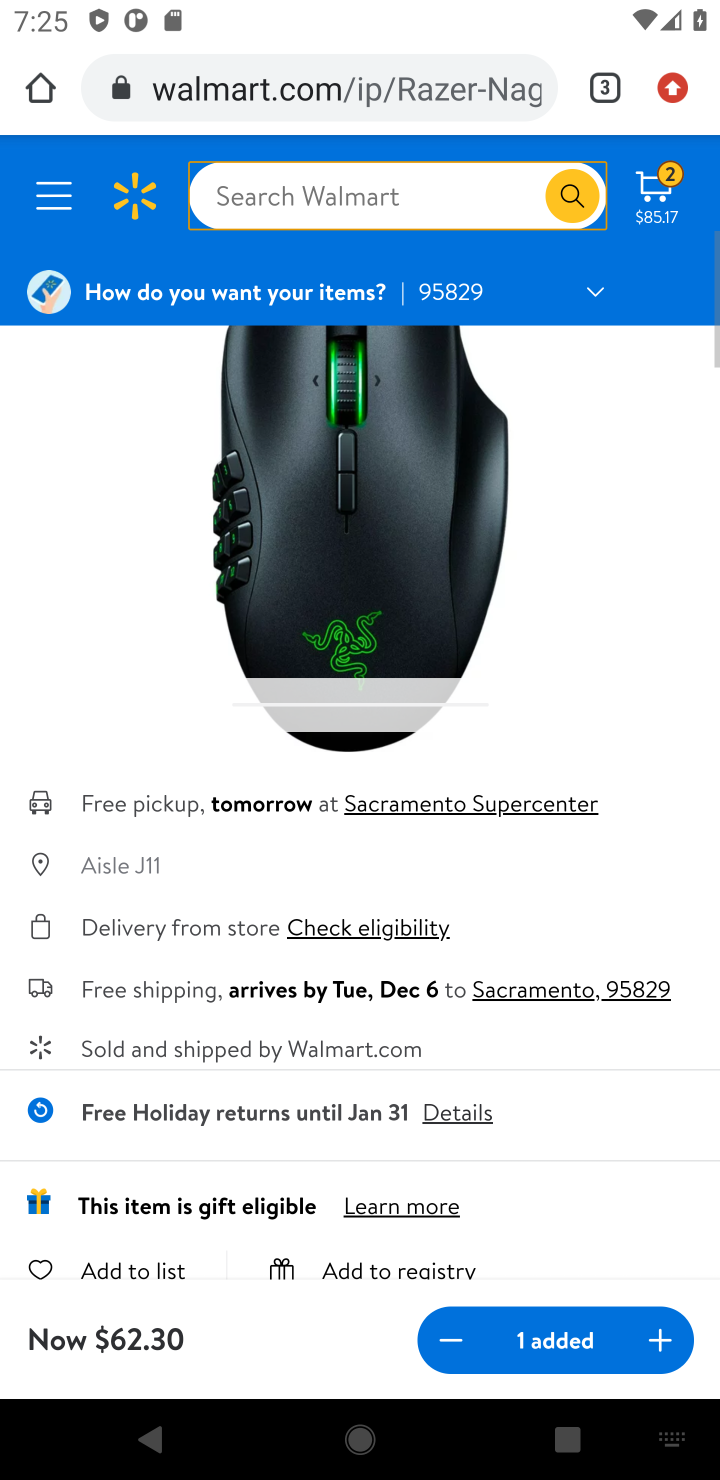
Step 29: drag from (357, 562) to (405, 750)
Your task to perform on an android device: Show the shopping cart on walmart.com. Search for razer naga on walmart.com, select the first entry, add it to the cart, then select checkout. Image 30: 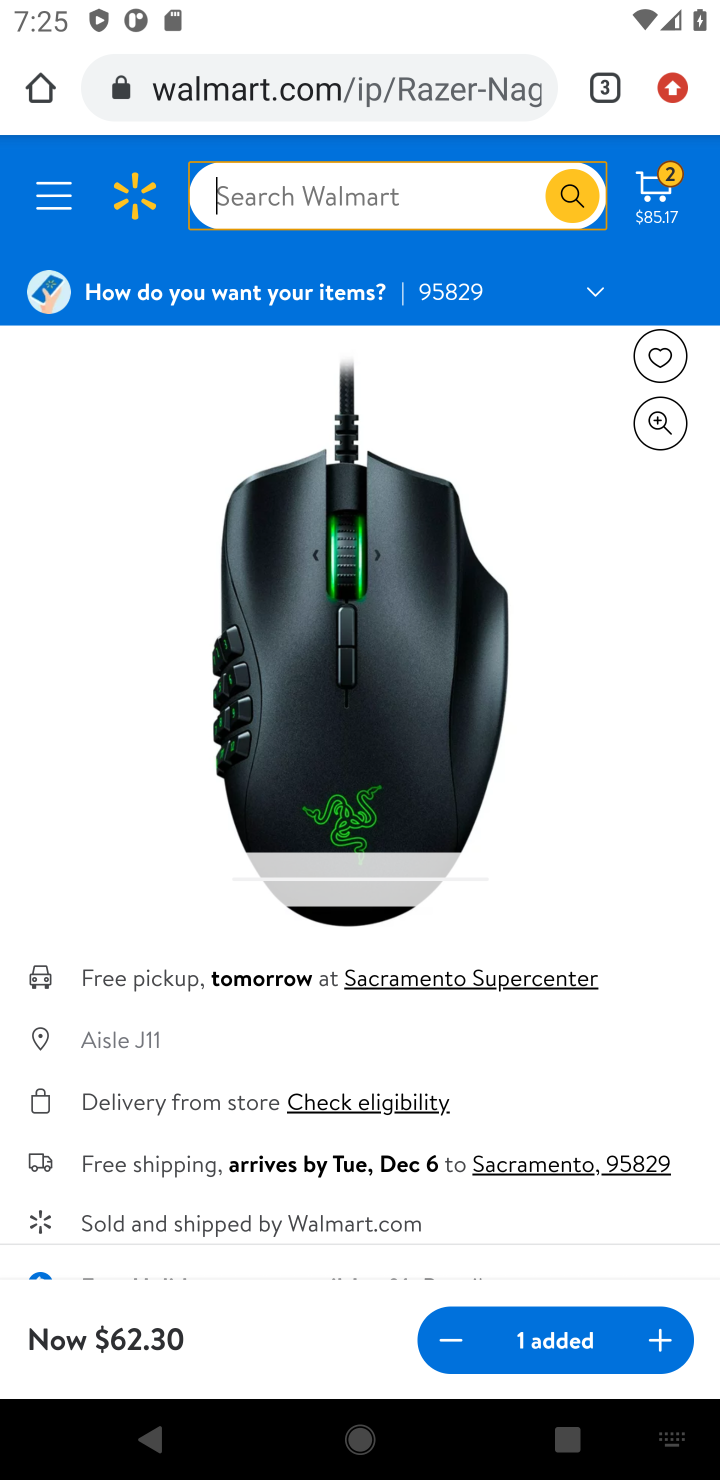
Step 30: click (402, 717)
Your task to perform on an android device: Show the shopping cart on walmart.com. Search for razer naga on walmart.com, select the first entry, add it to the cart, then select checkout. Image 31: 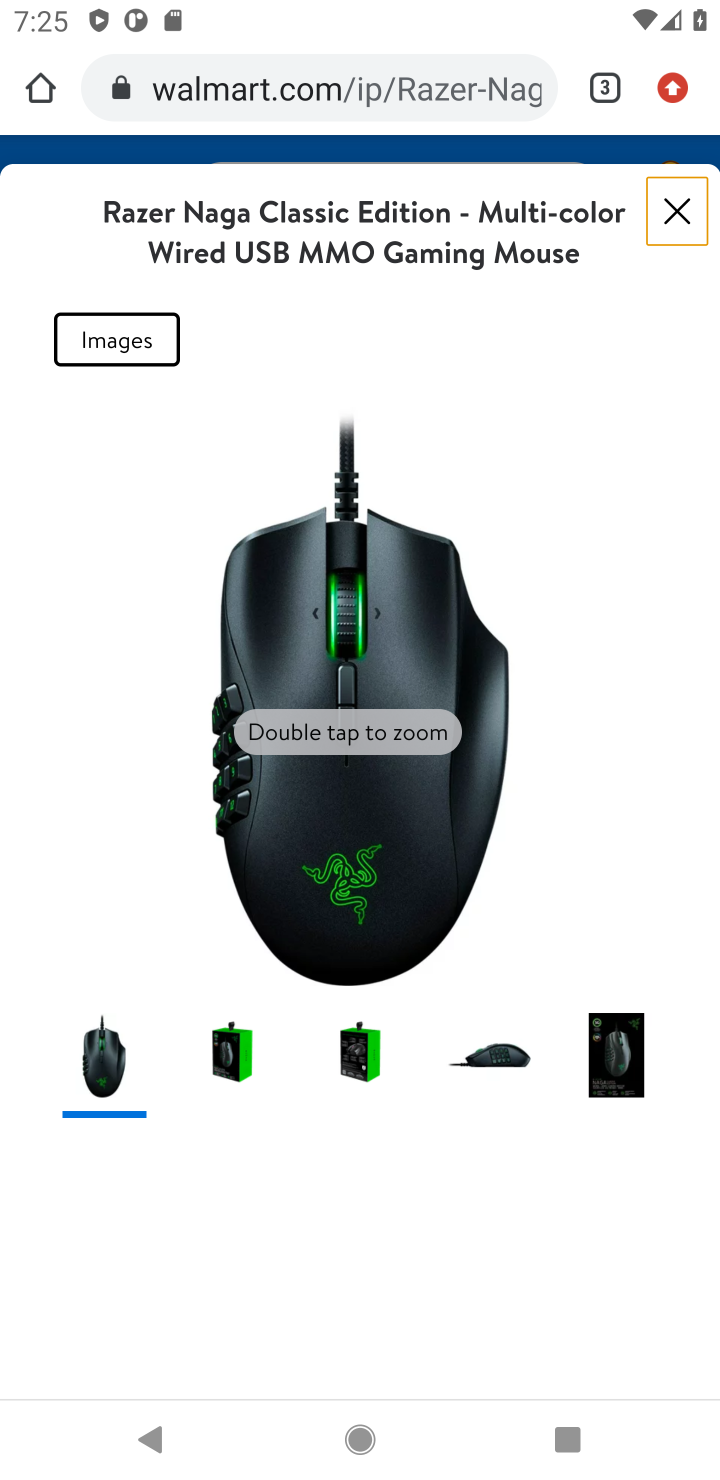
Step 31: click (690, 198)
Your task to perform on an android device: Show the shopping cart on walmart.com. Search for razer naga on walmart.com, select the first entry, add it to the cart, then select checkout. Image 32: 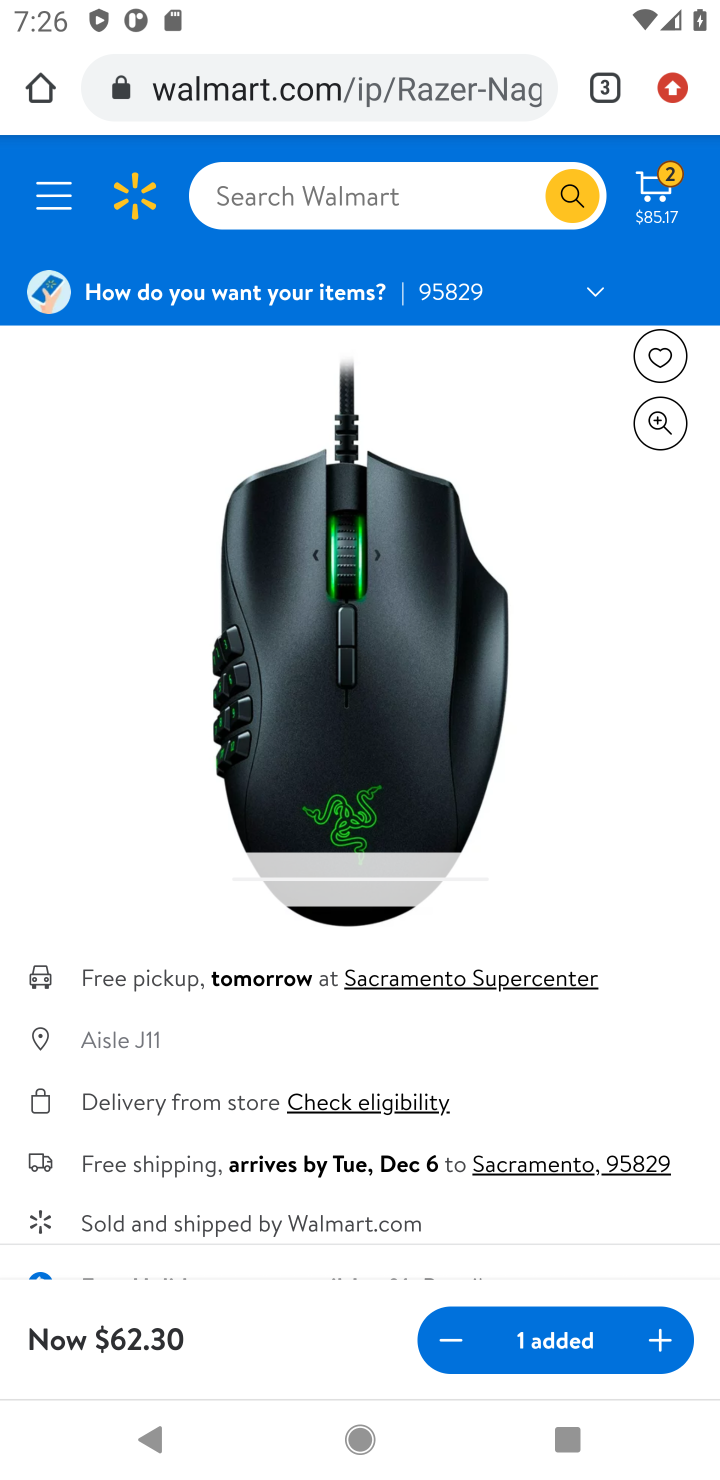
Step 32: task complete